Your task to perform on an android device: How big is the universe? Image 0: 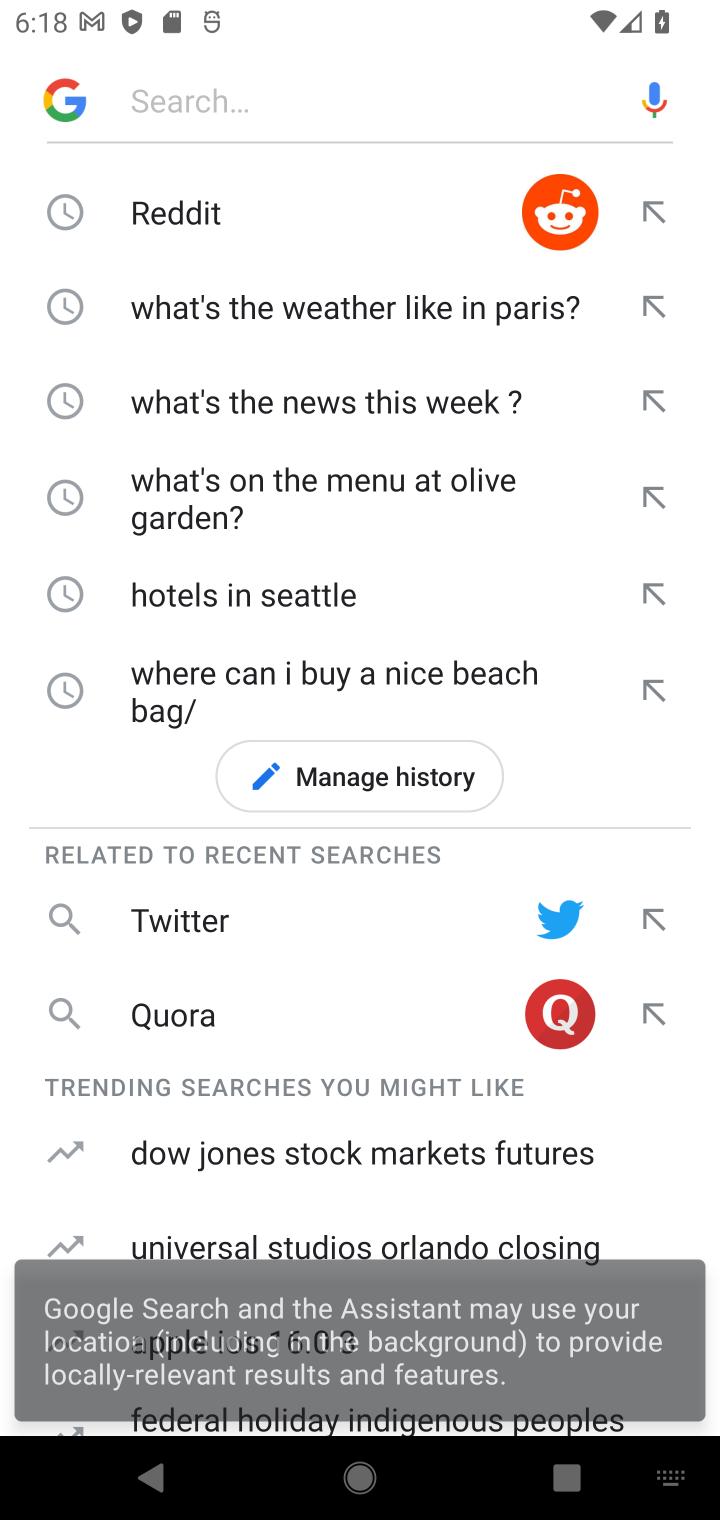
Step 0: press home button
Your task to perform on an android device: How big is the universe? Image 1: 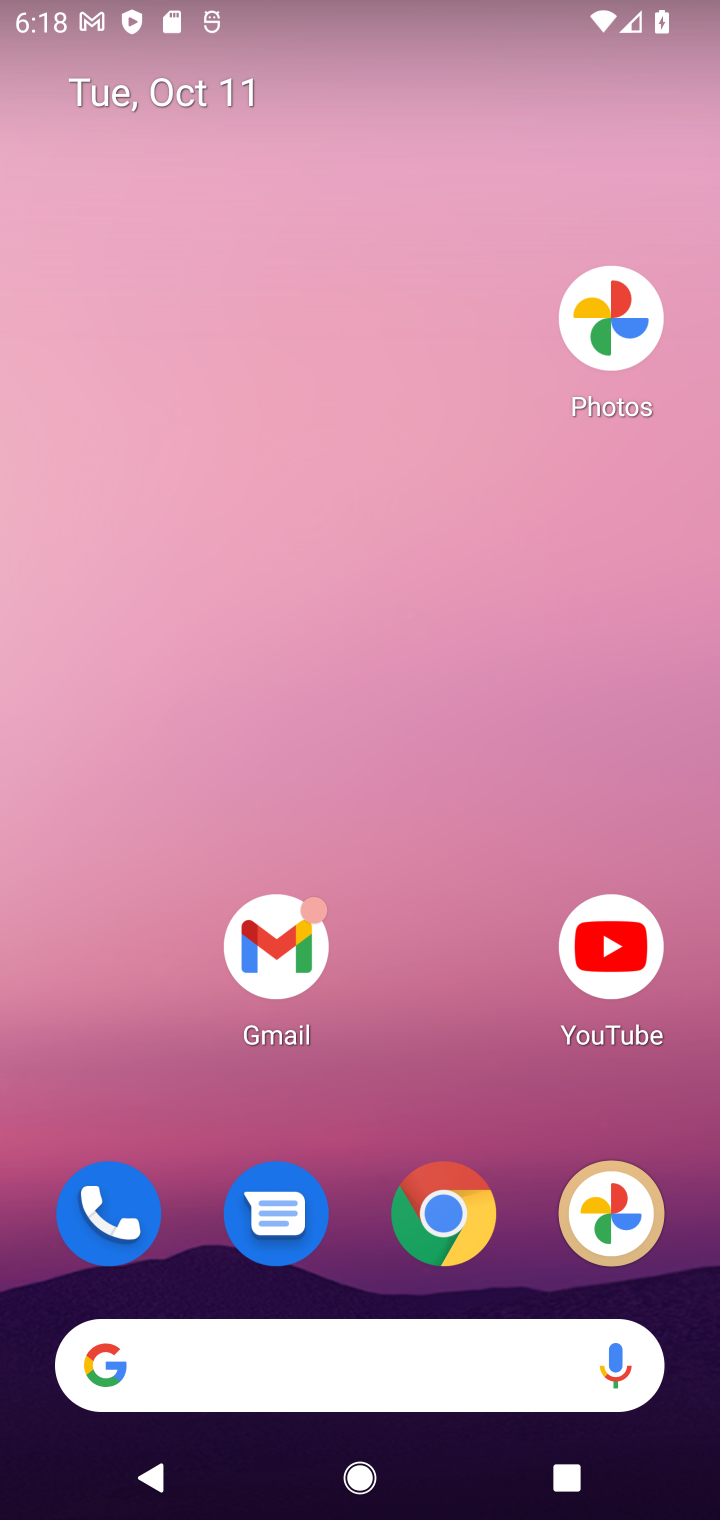
Step 1: drag from (434, 917) to (466, 91)
Your task to perform on an android device: How big is the universe? Image 2: 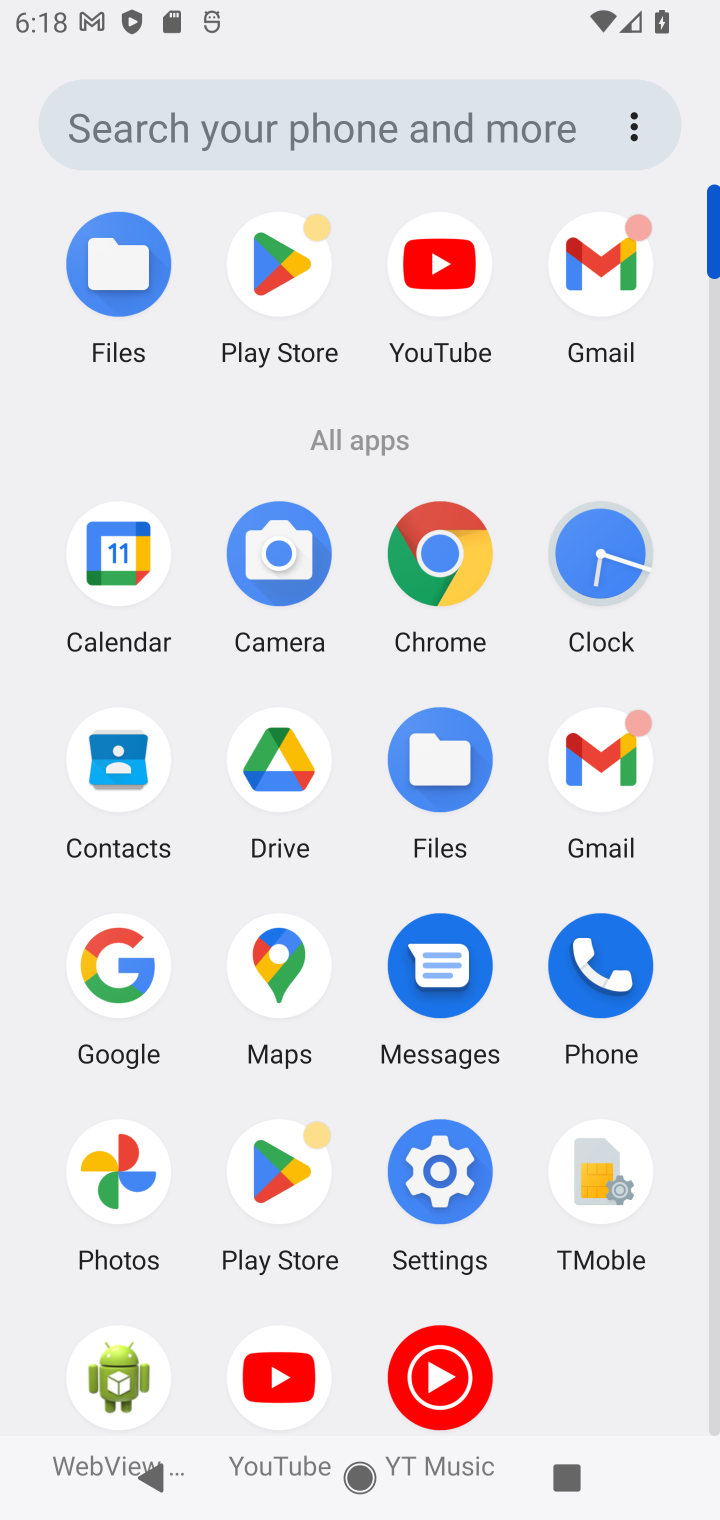
Step 2: click (457, 531)
Your task to perform on an android device: How big is the universe? Image 3: 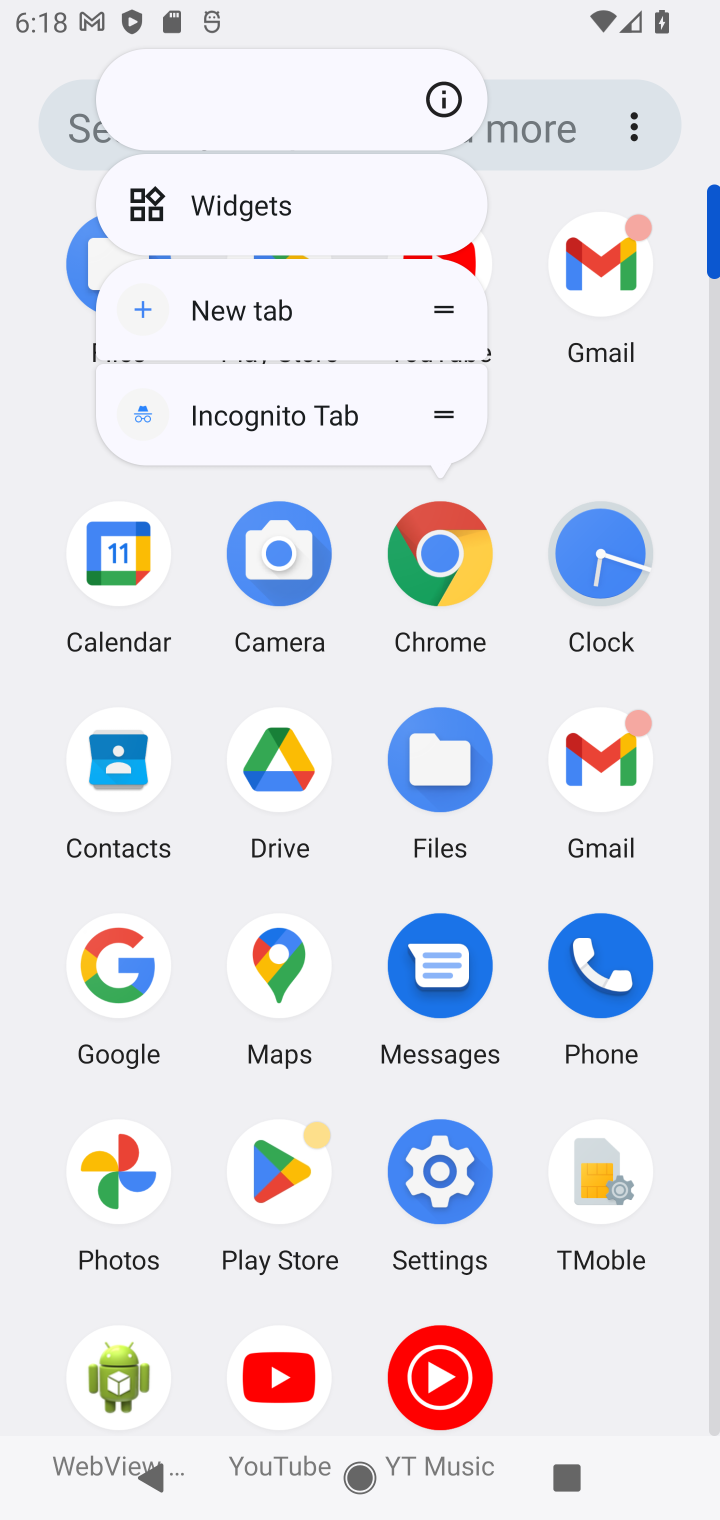
Step 3: click (428, 573)
Your task to perform on an android device: How big is the universe? Image 4: 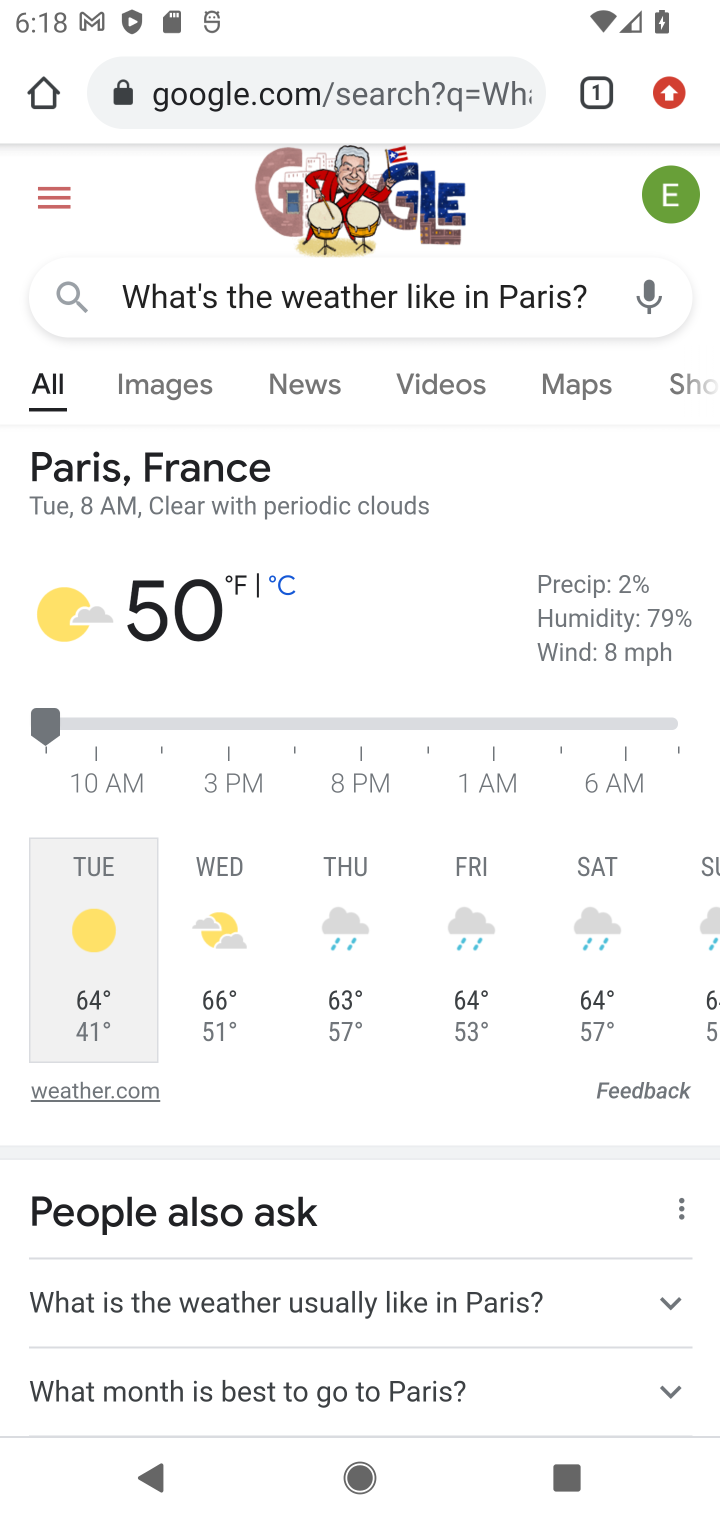
Step 4: click (269, 98)
Your task to perform on an android device: How big is the universe? Image 5: 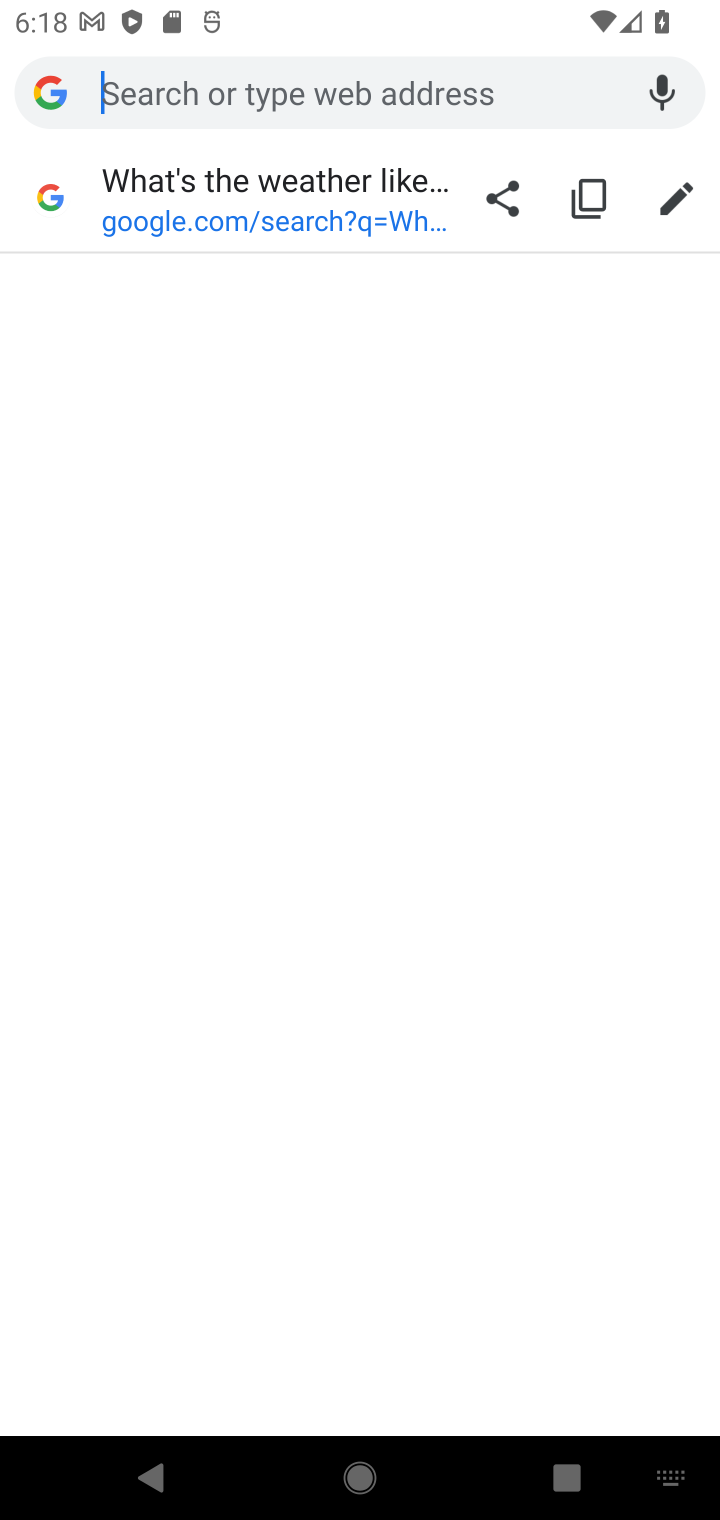
Step 5: type "How big is the universe?"
Your task to perform on an android device: How big is the universe? Image 6: 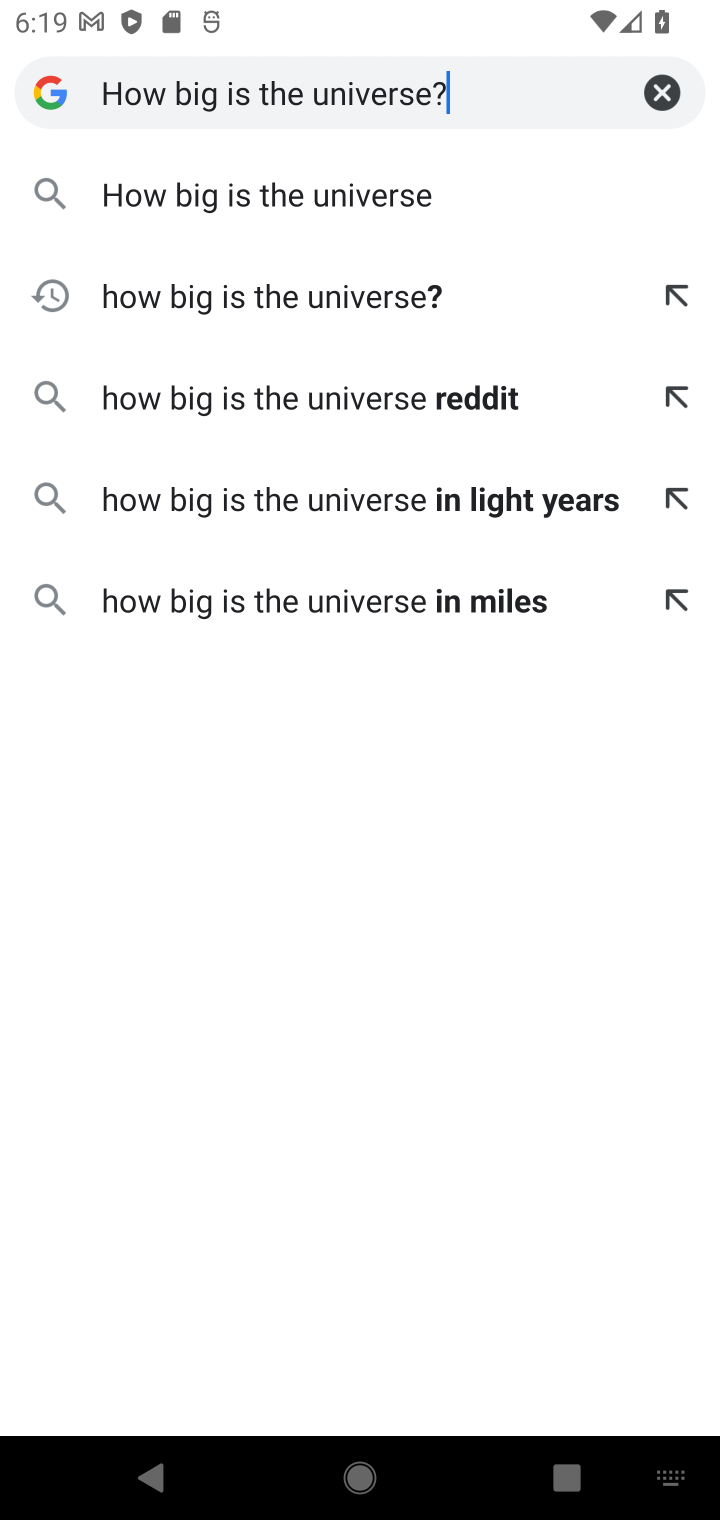
Step 6: type ""
Your task to perform on an android device: How big is the universe? Image 7: 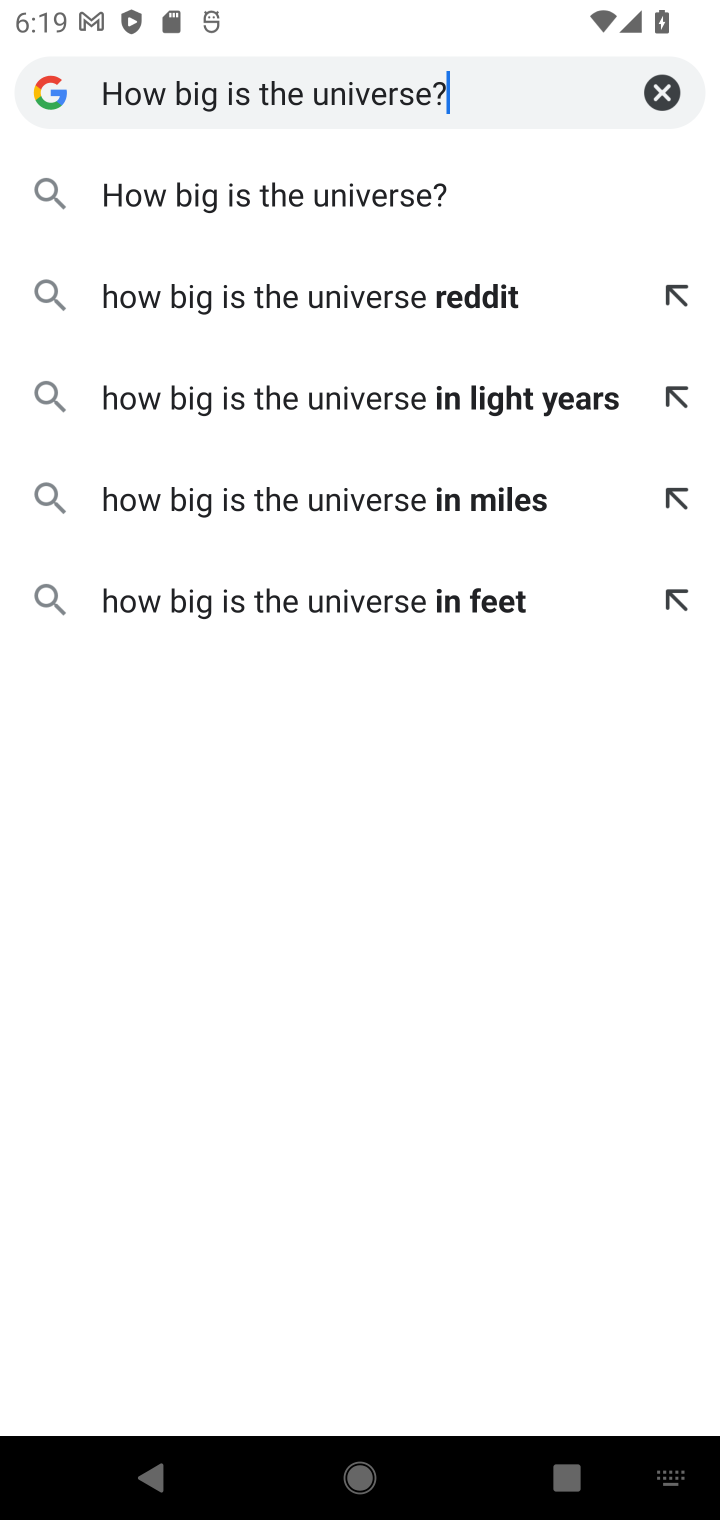
Step 7: press enter
Your task to perform on an android device: How big is the universe? Image 8: 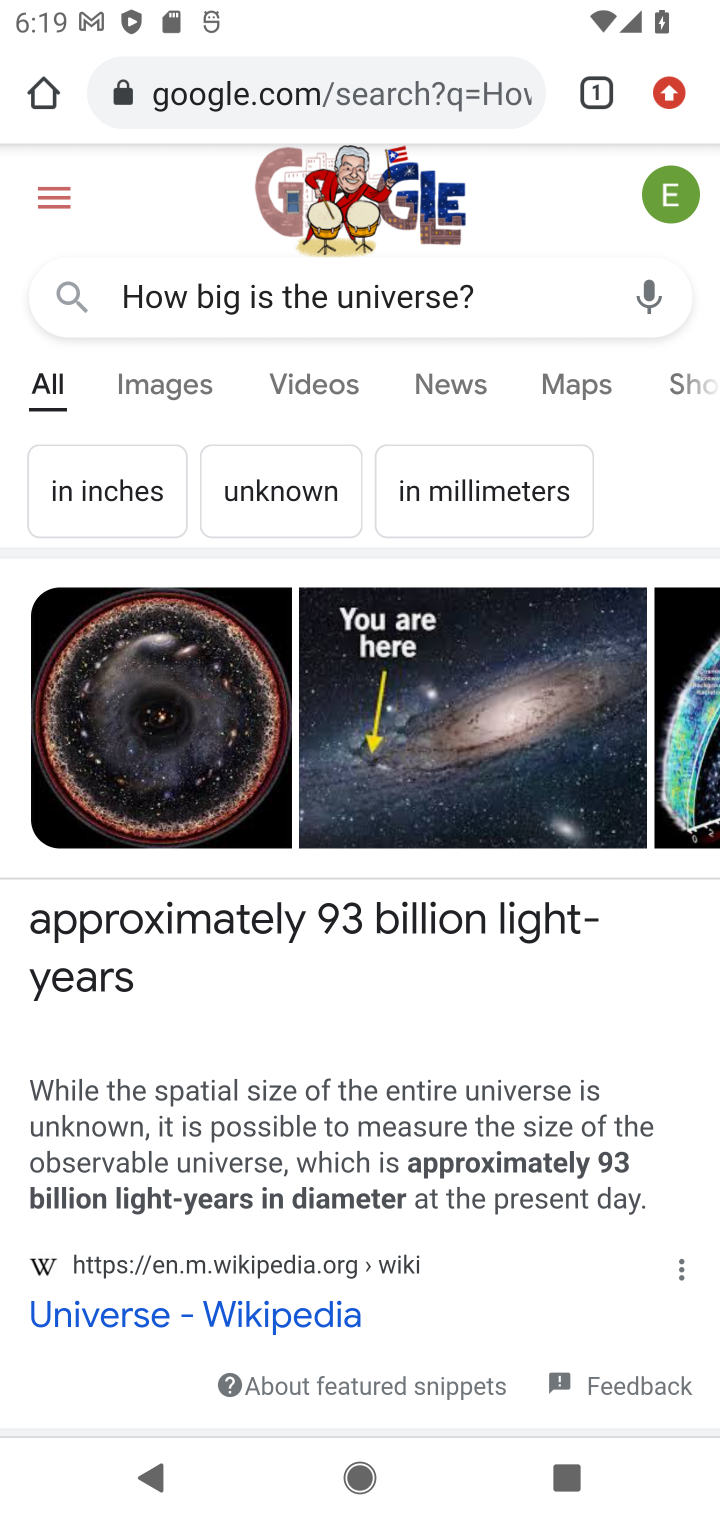
Step 8: click (220, 1314)
Your task to perform on an android device: How big is the universe? Image 9: 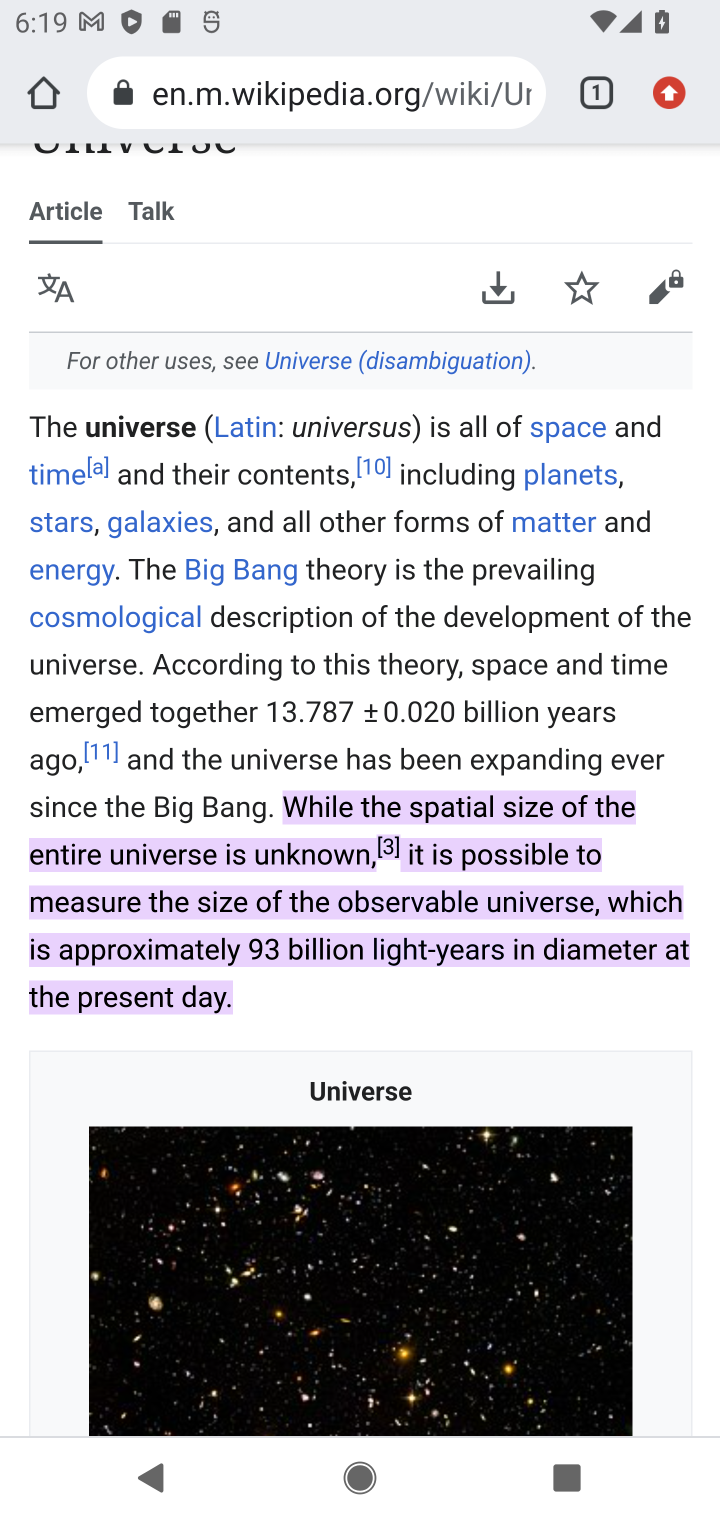
Step 9: drag from (312, 1175) to (356, 169)
Your task to perform on an android device: How big is the universe? Image 10: 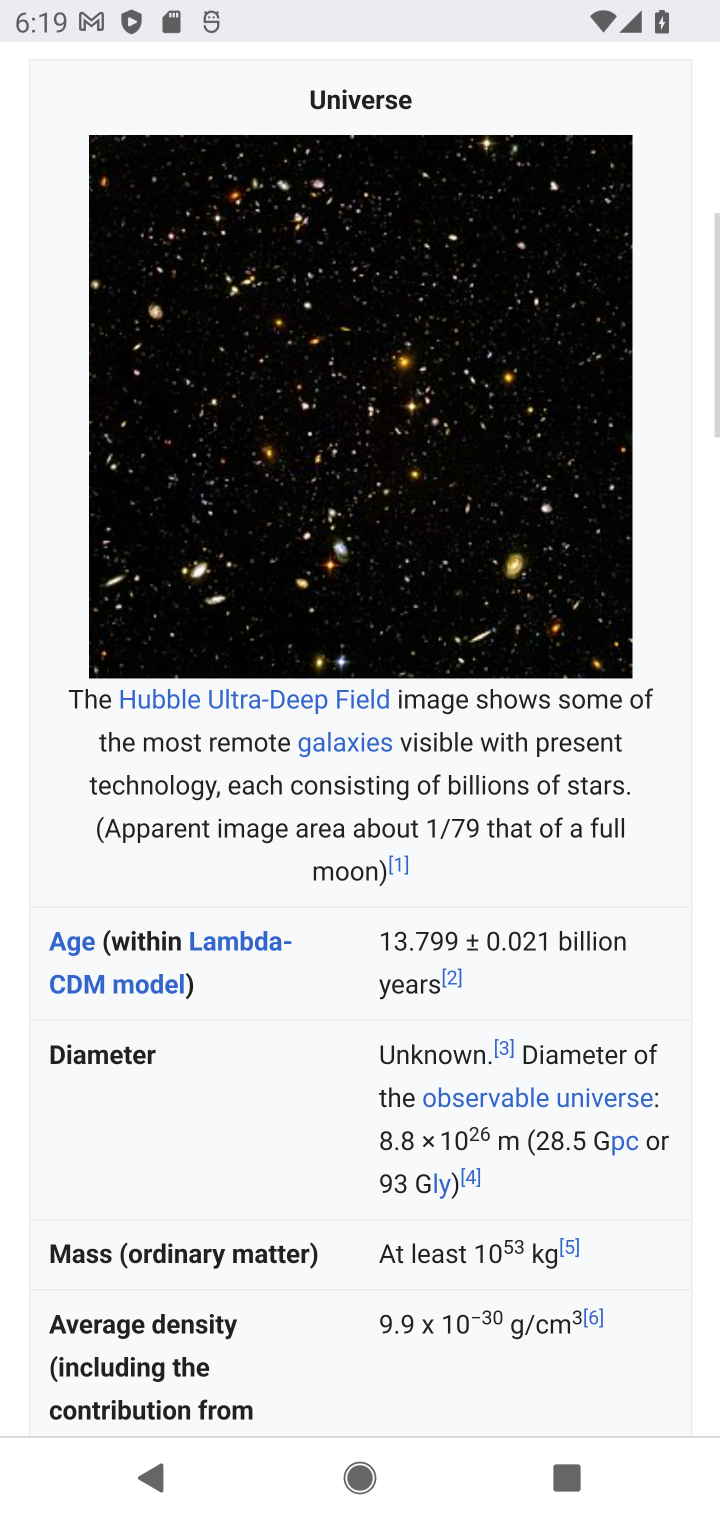
Step 10: drag from (354, 1328) to (455, 289)
Your task to perform on an android device: How big is the universe? Image 11: 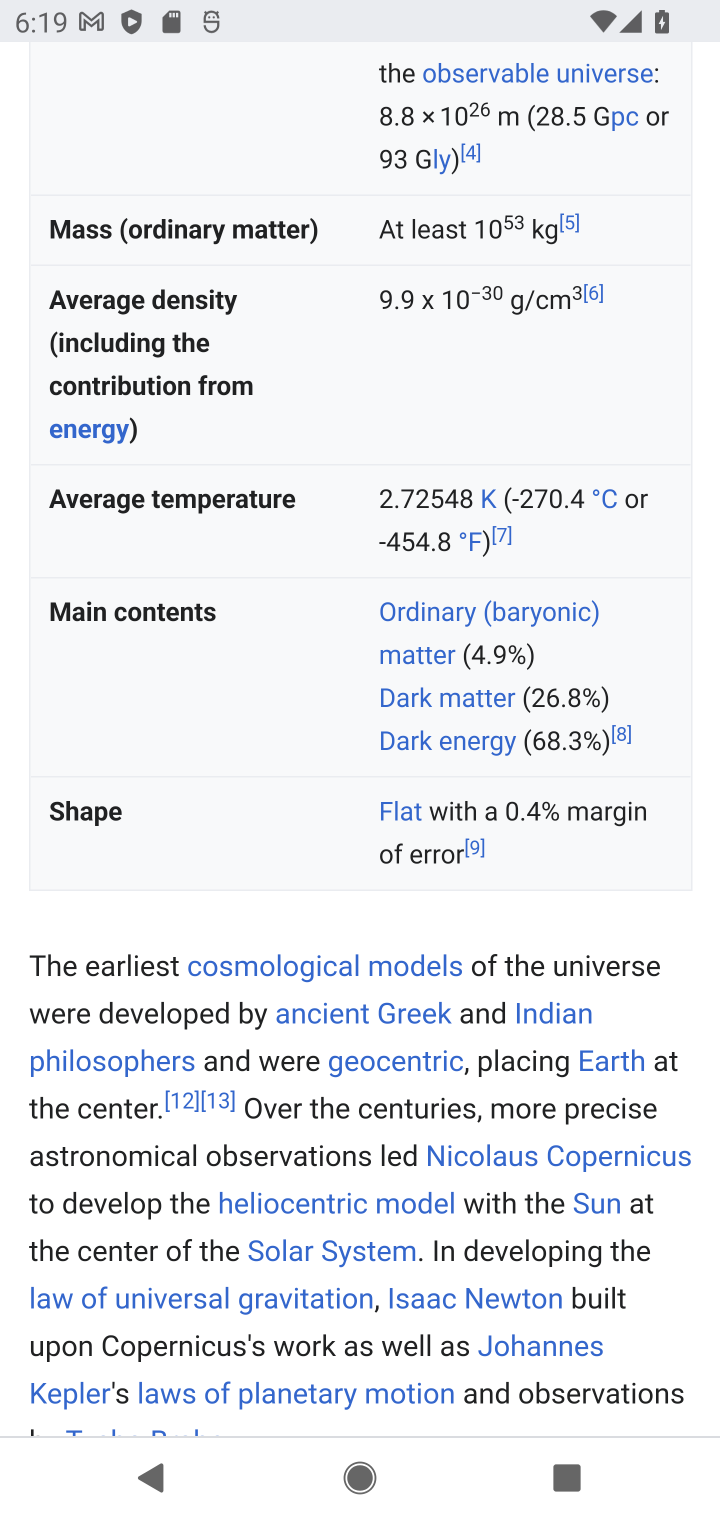
Step 11: drag from (450, 1268) to (337, 53)
Your task to perform on an android device: How big is the universe? Image 12: 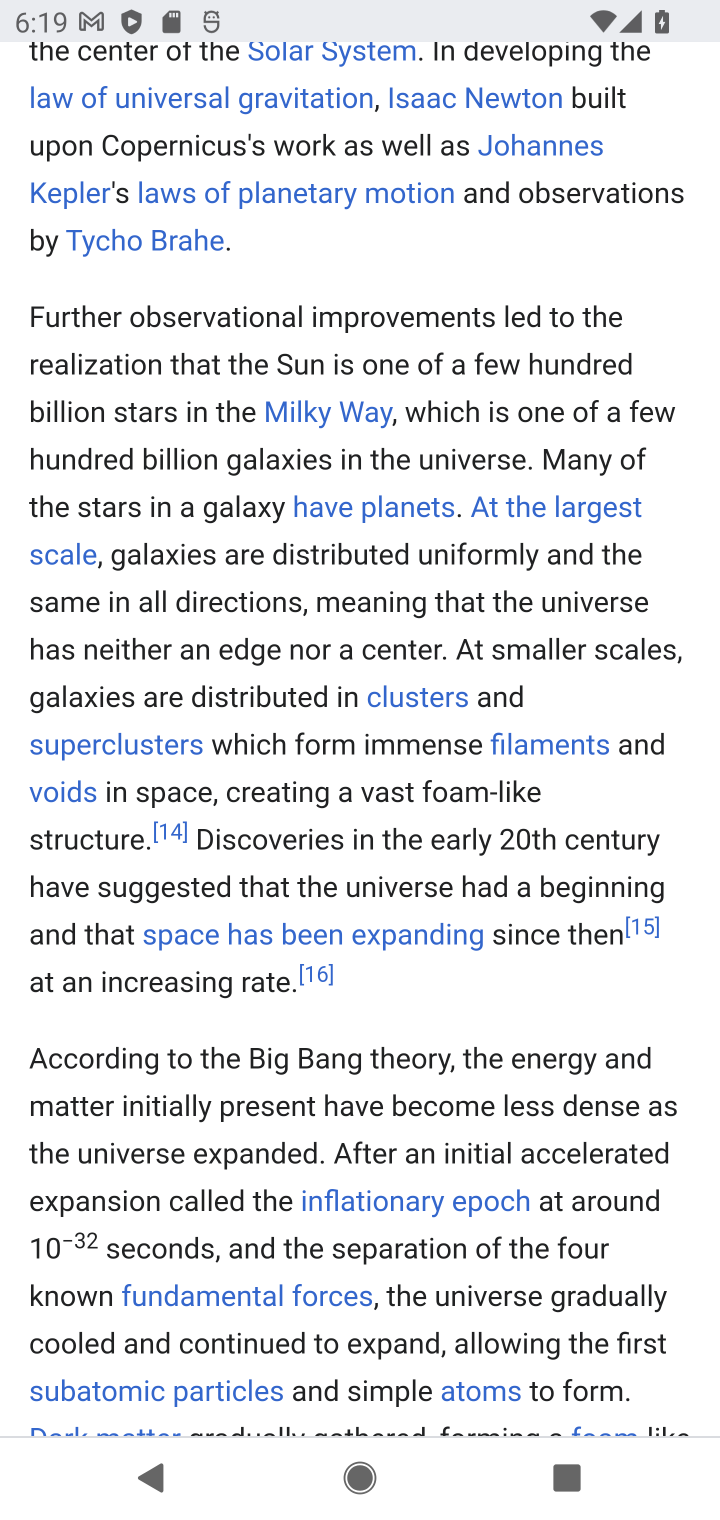
Step 12: drag from (218, 1295) to (247, 104)
Your task to perform on an android device: How big is the universe? Image 13: 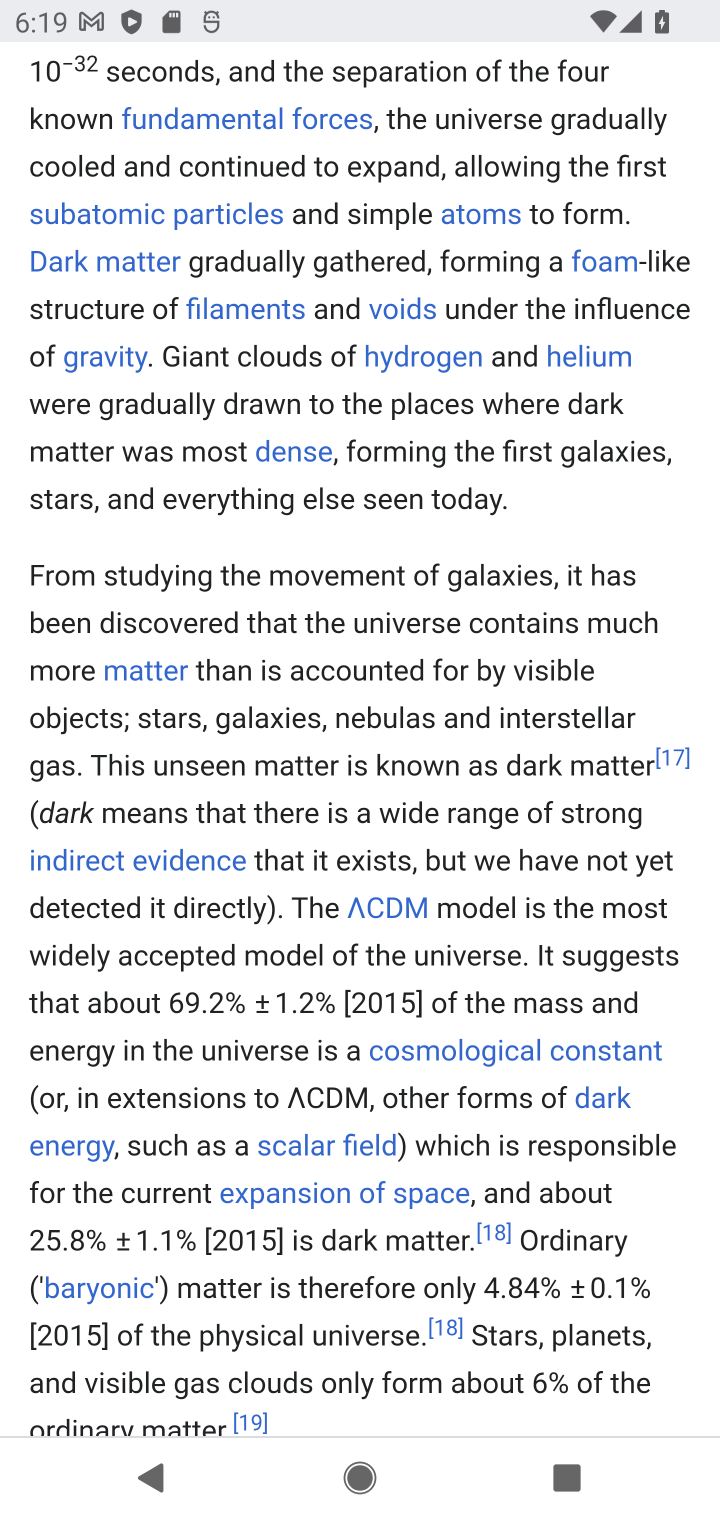
Step 13: drag from (235, 1265) to (259, 255)
Your task to perform on an android device: How big is the universe? Image 14: 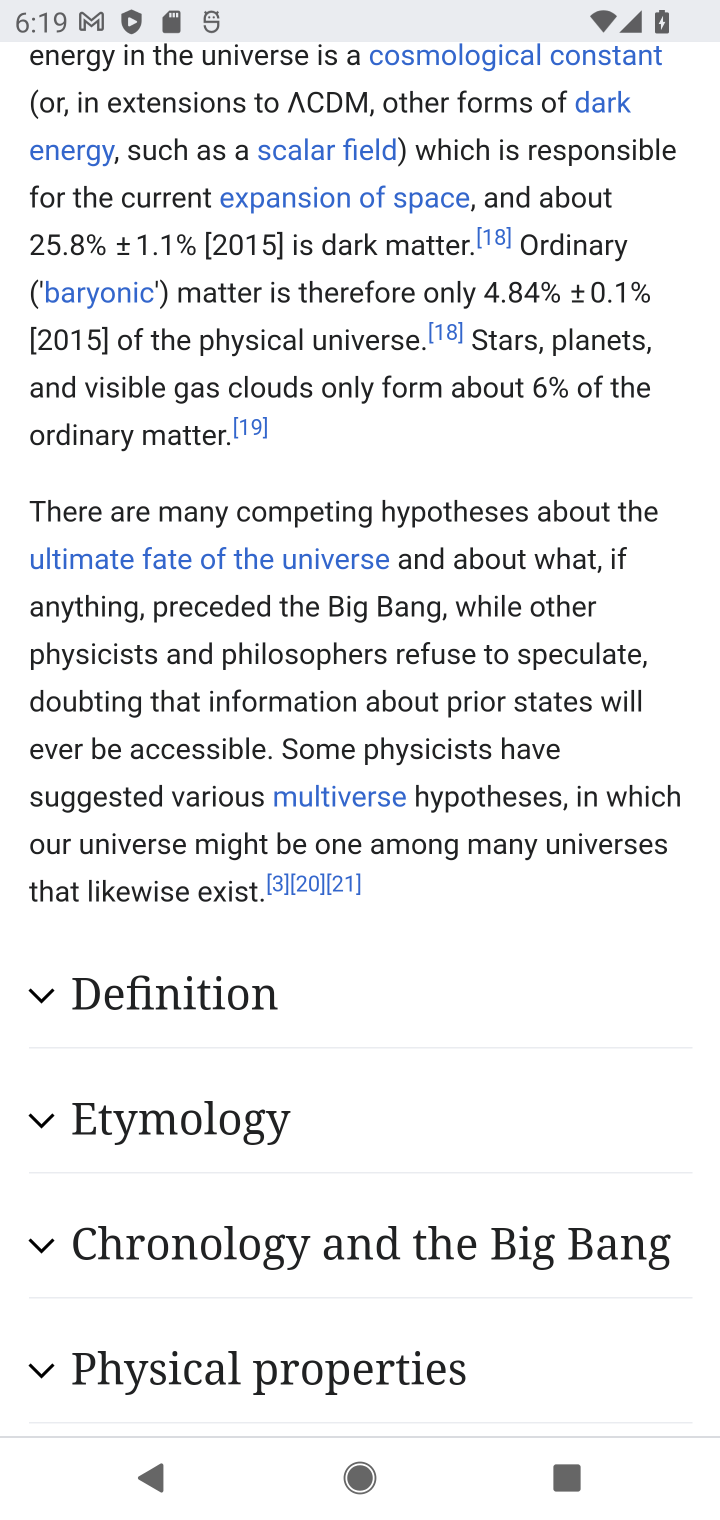
Step 14: click (245, 1003)
Your task to perform on an android device: How big is the universe? Image 15: 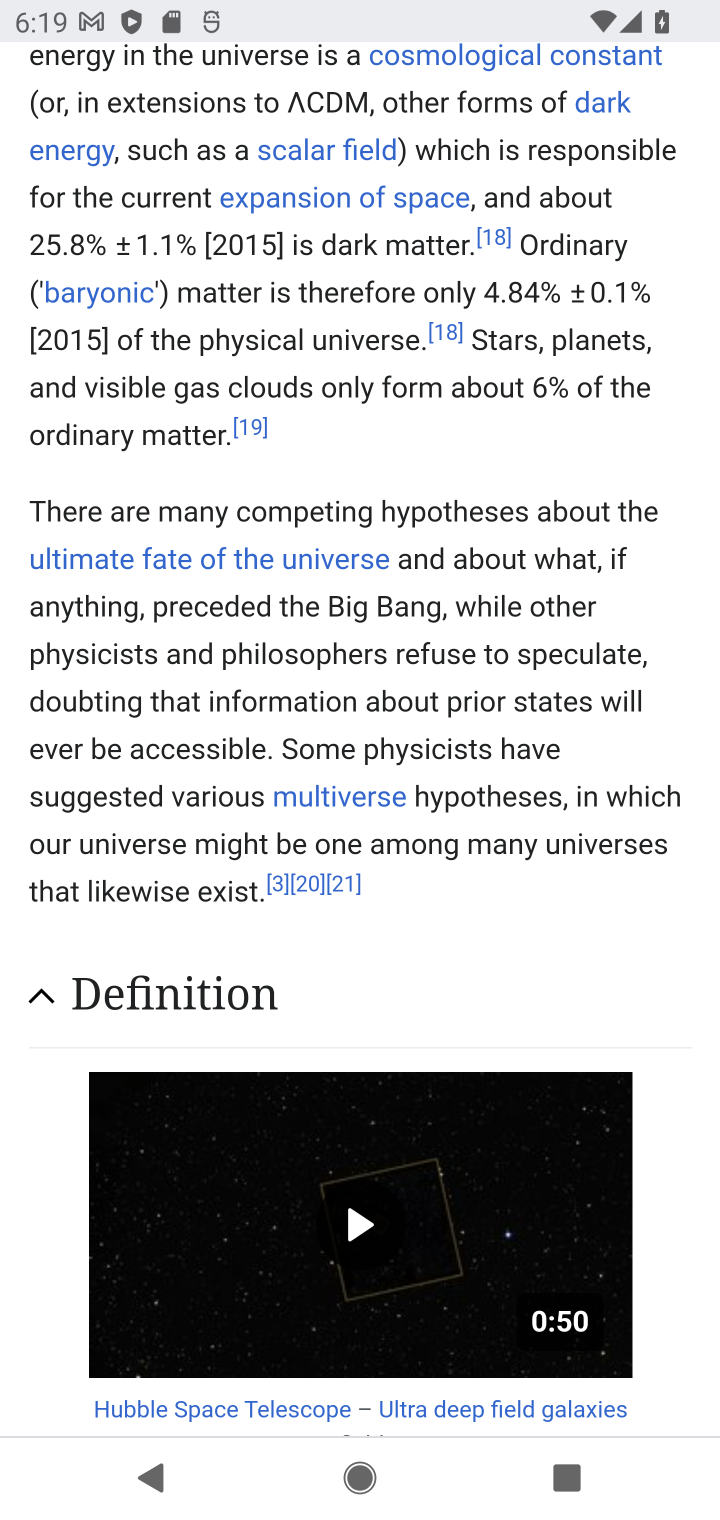
Step 15: drag from (461, 668) to (493, 64)
Your task to perform on an android device: How big is the universe? Image 16: 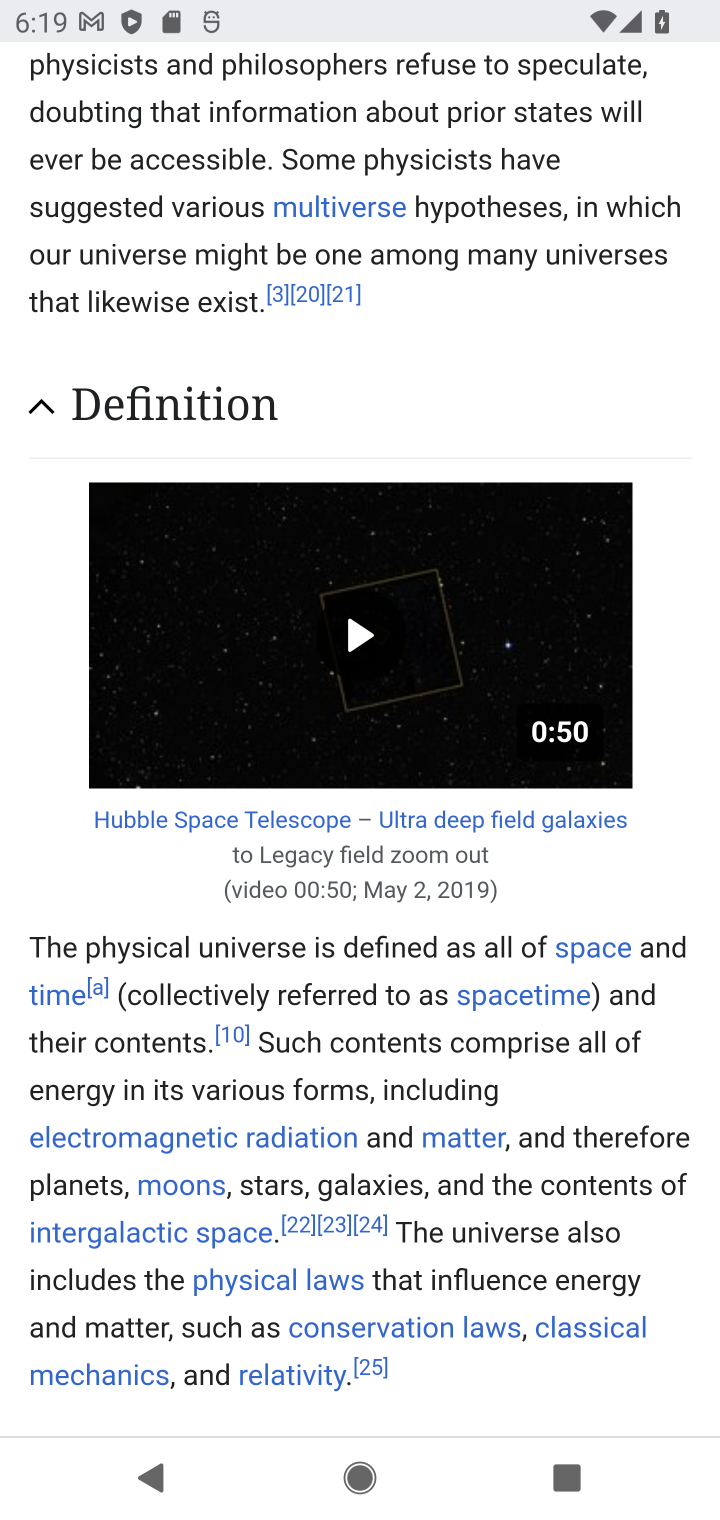
Step 16: click (37, 380)
Your task to perform on an android device: How big is the universe? Image 17: 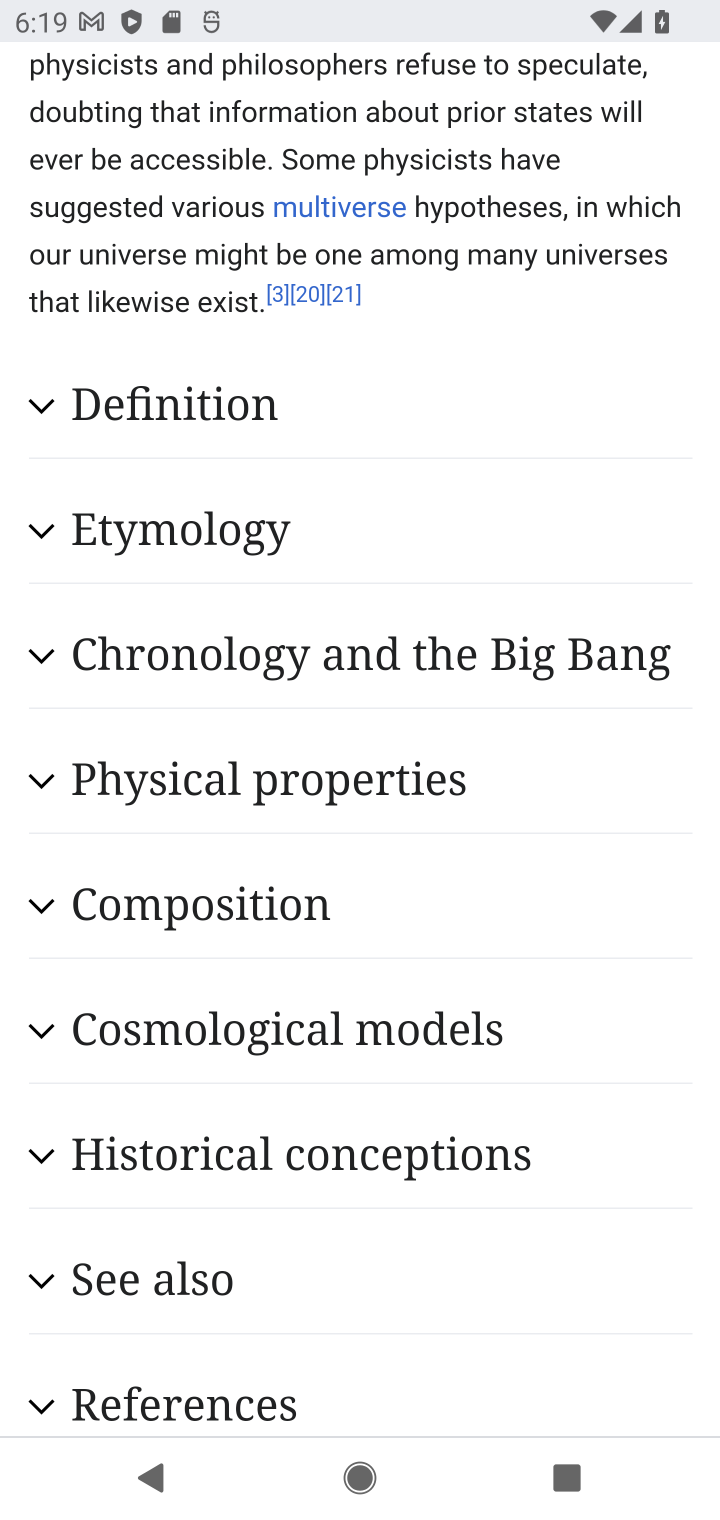
Step 17: click (57, 524)
Your task to perform on an android device: How big is the universe? Image 18: 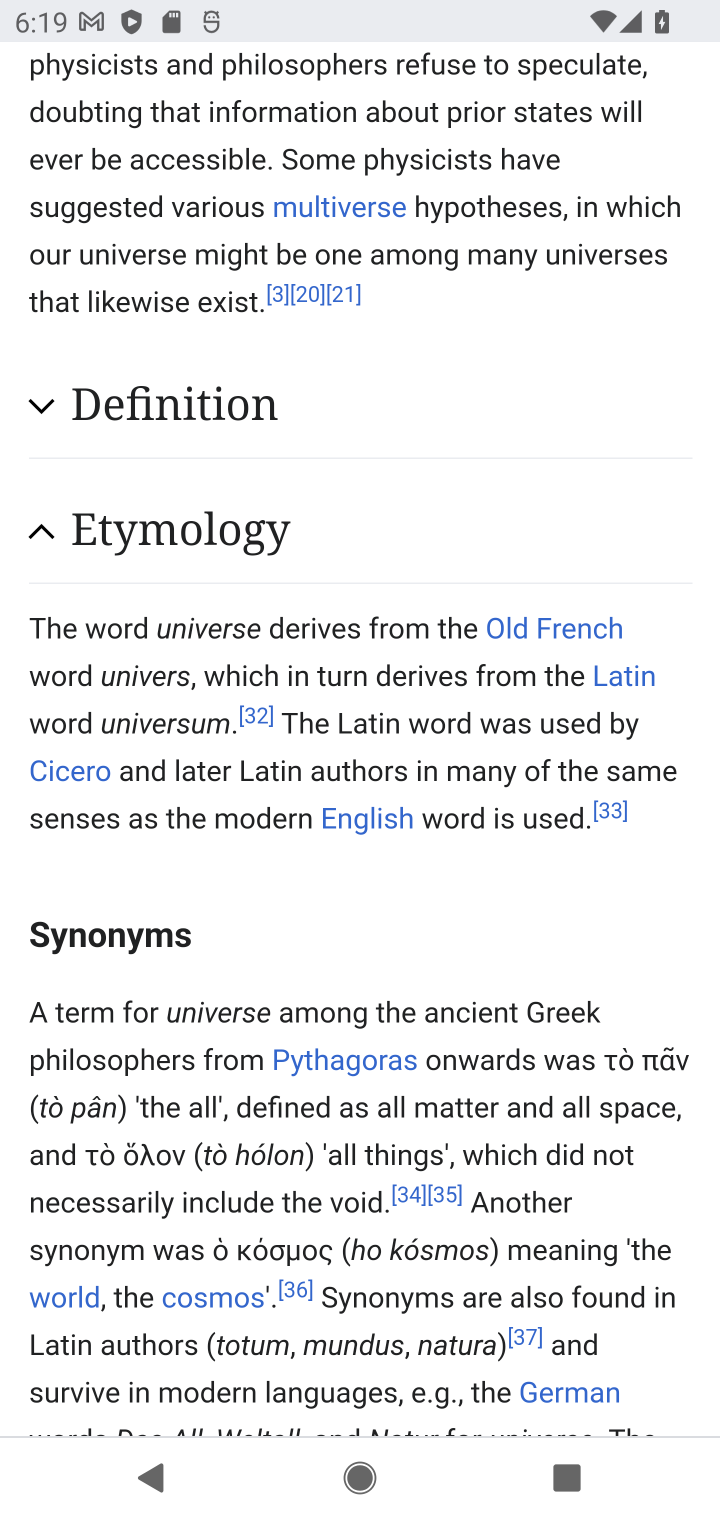
Step 18: drag from (183, 1227) to (292, 135)
Your task to perform on an android device: How big is the universe? Image 19: 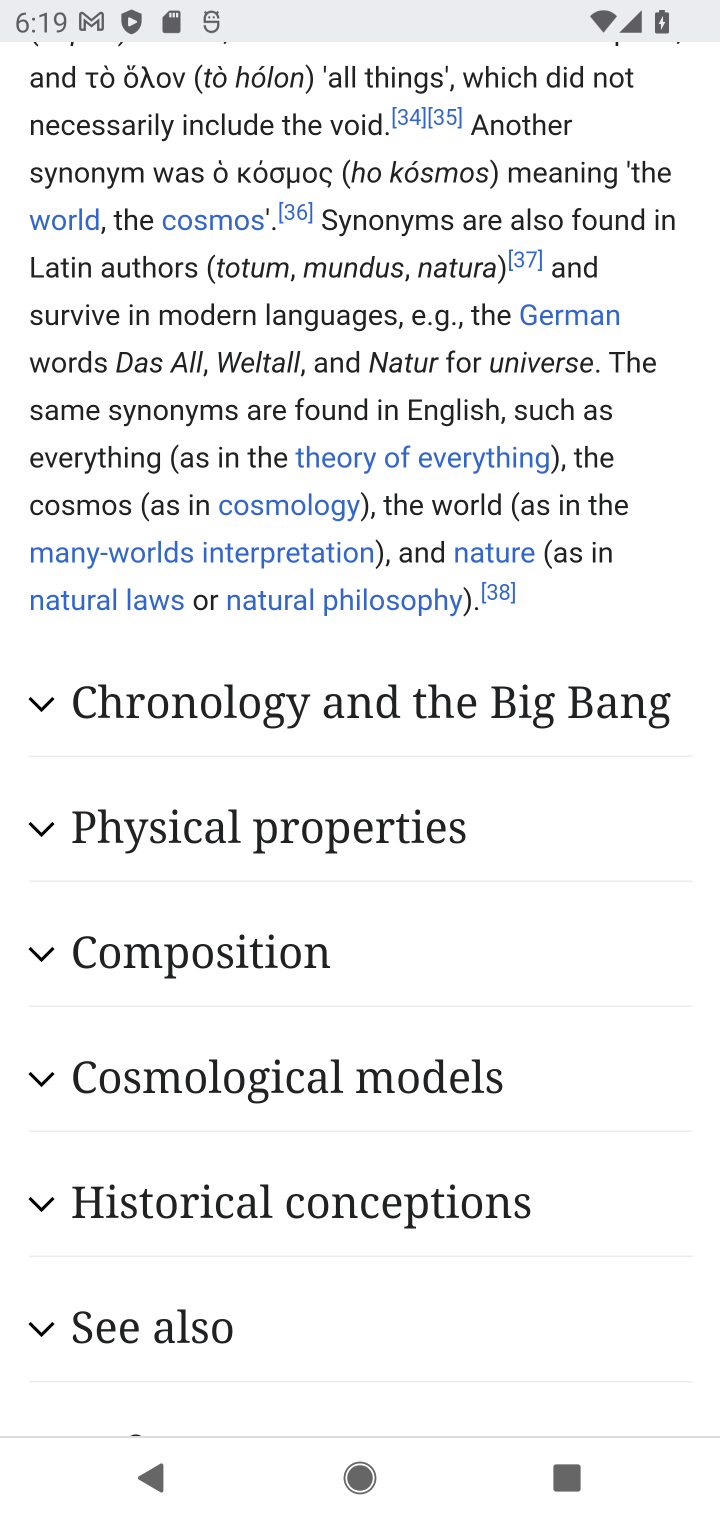
Step 19: click (84, 855)
Your task to perform on an android device: How big is the universe? Image 20: 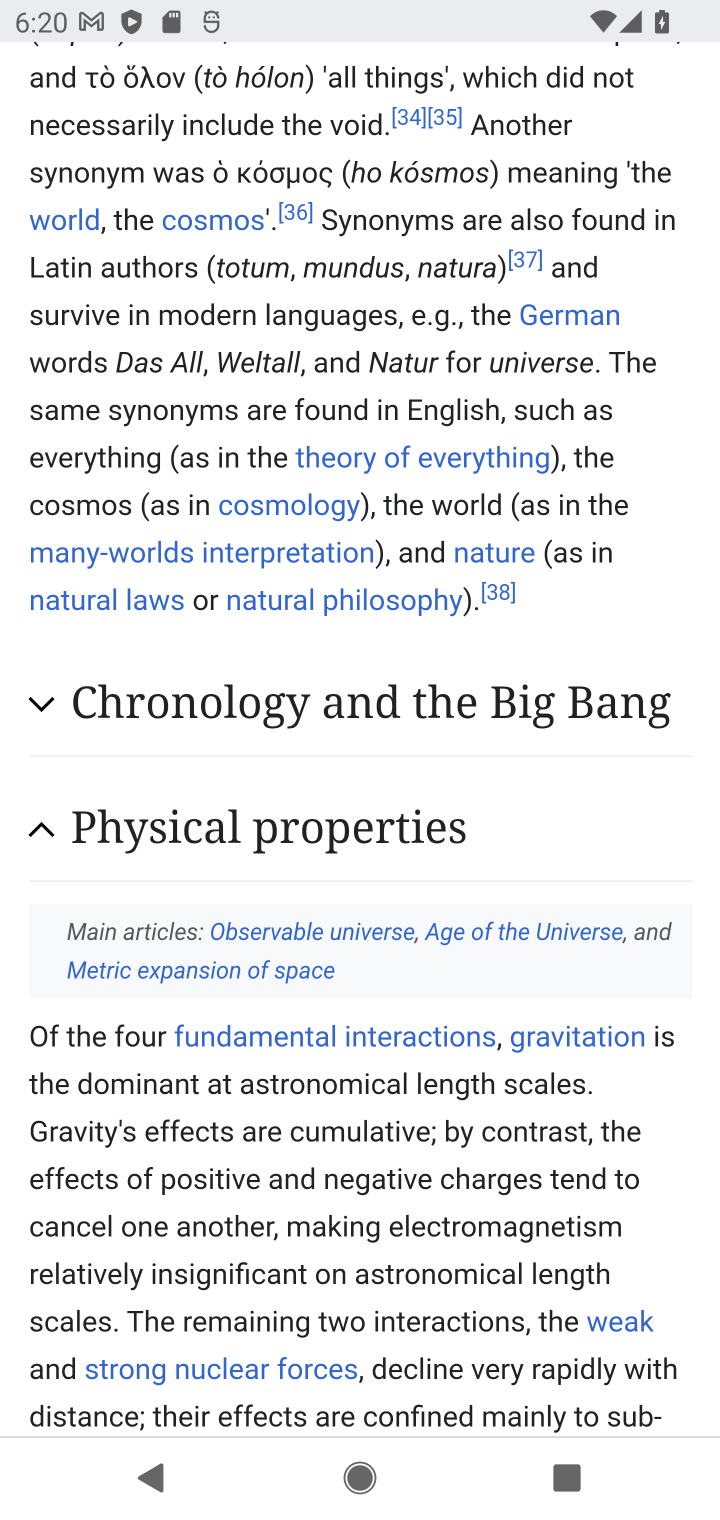
Step 20: drag from (183, 1109) to (224, 458)
Your task to perform on an android device: How big is the universe? Image 21: 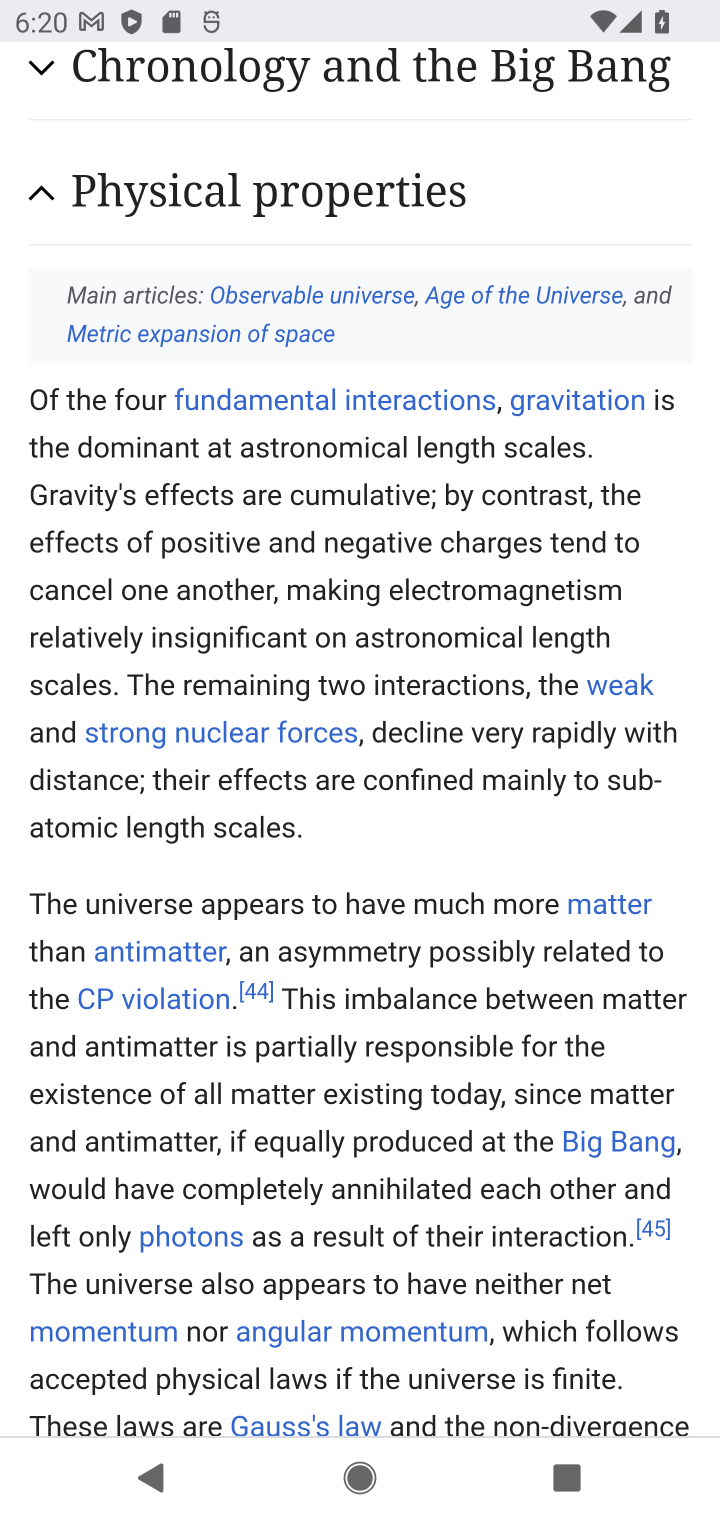
Step 21: drag from (192, 837) to (214, 338)
Your task to perform on an android device: How big is the universe? Image 22: 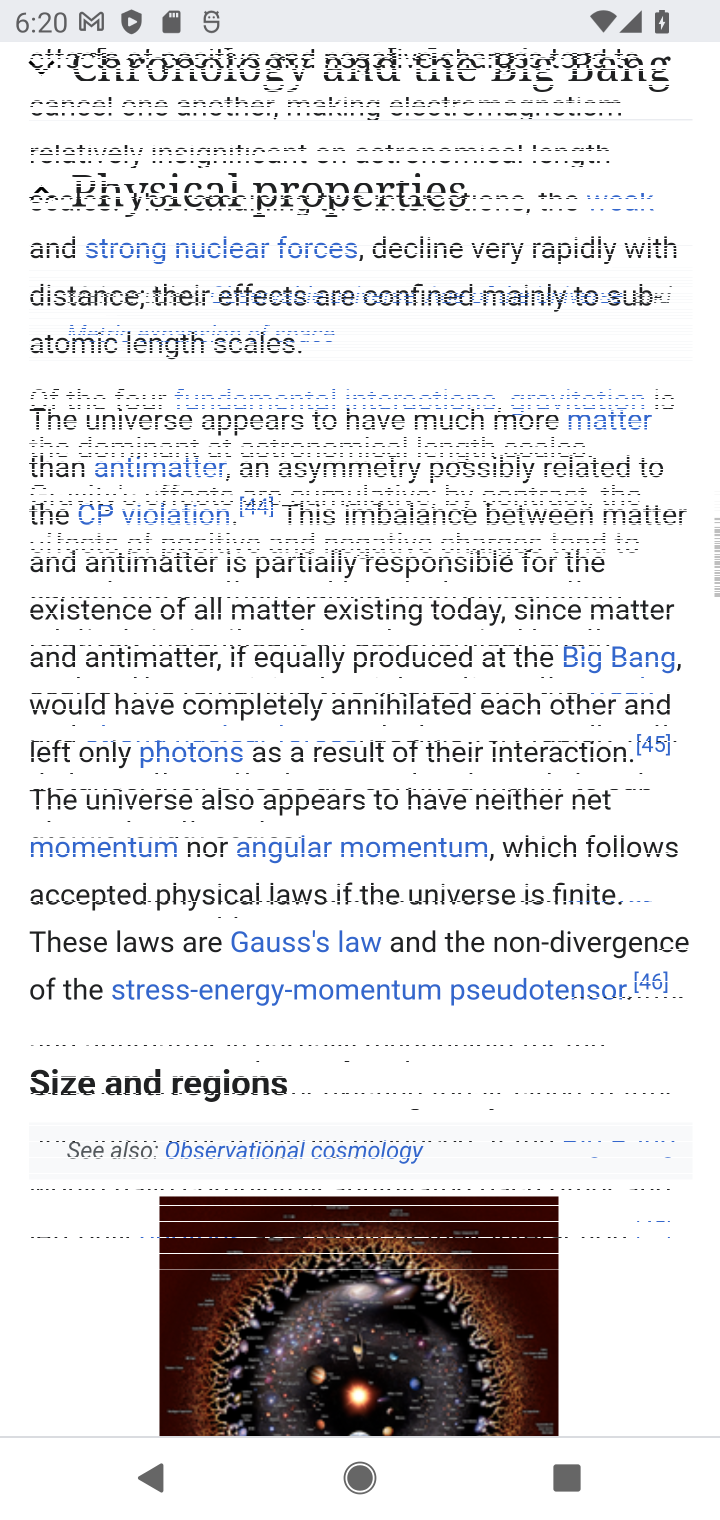
Step 22: drag from (142, 630) to (191, 394)
Your task to perform on an android device: How big is the universe? Image 23: 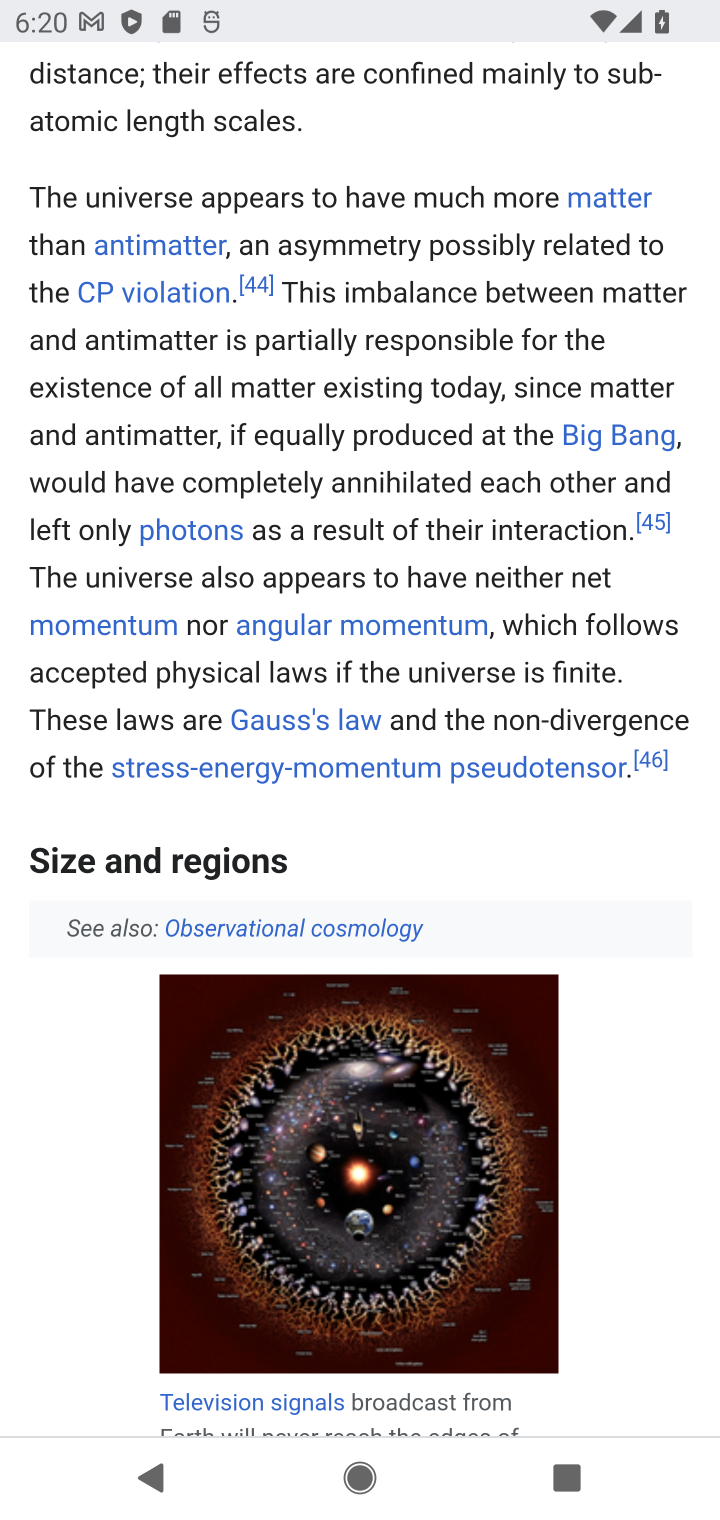
Step 23: drag from (190, 791) to (281, 321)
Your task to perform on an android device: How big is the universe? Image 24: 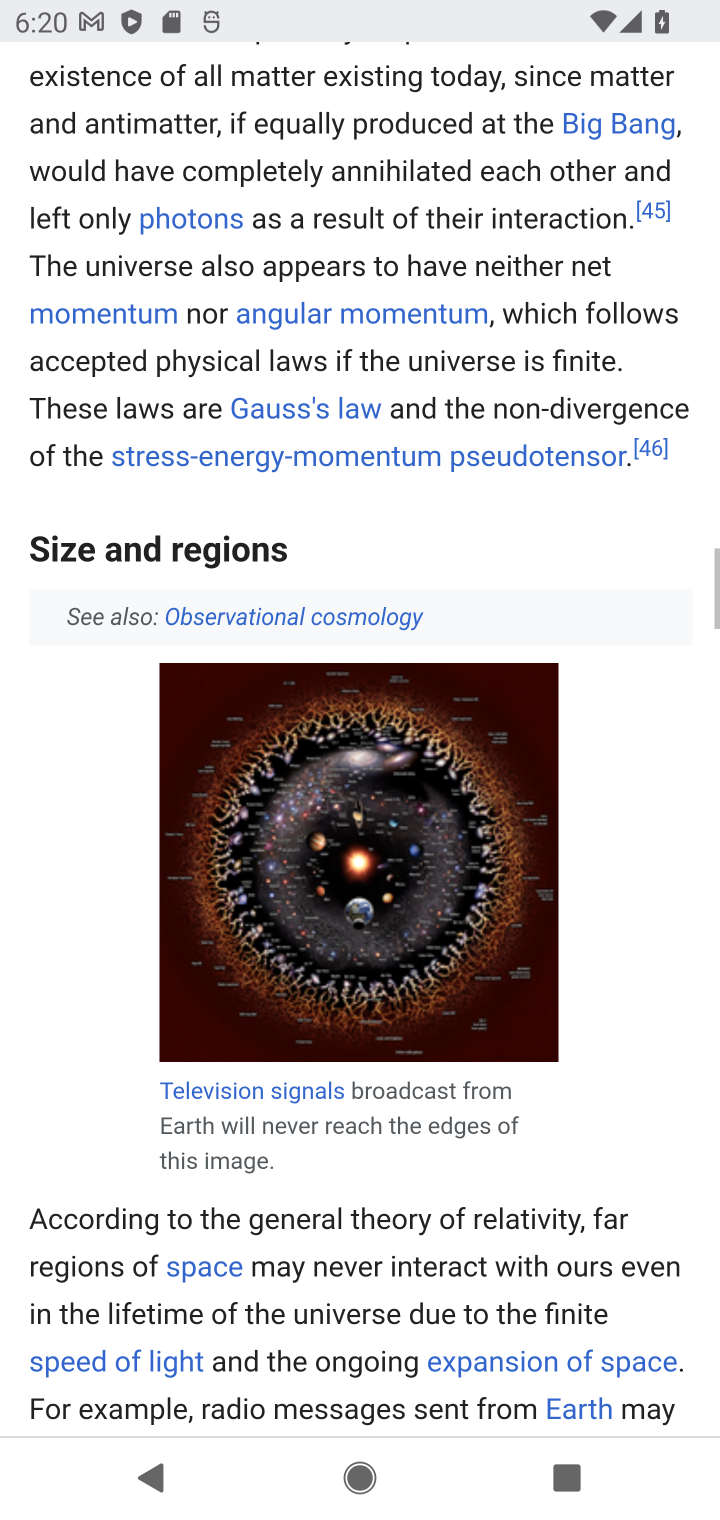
Step 24: drag from (276, 719) to (286, 294)
Your task to perform on an android device: How big is the universe? Image 25: 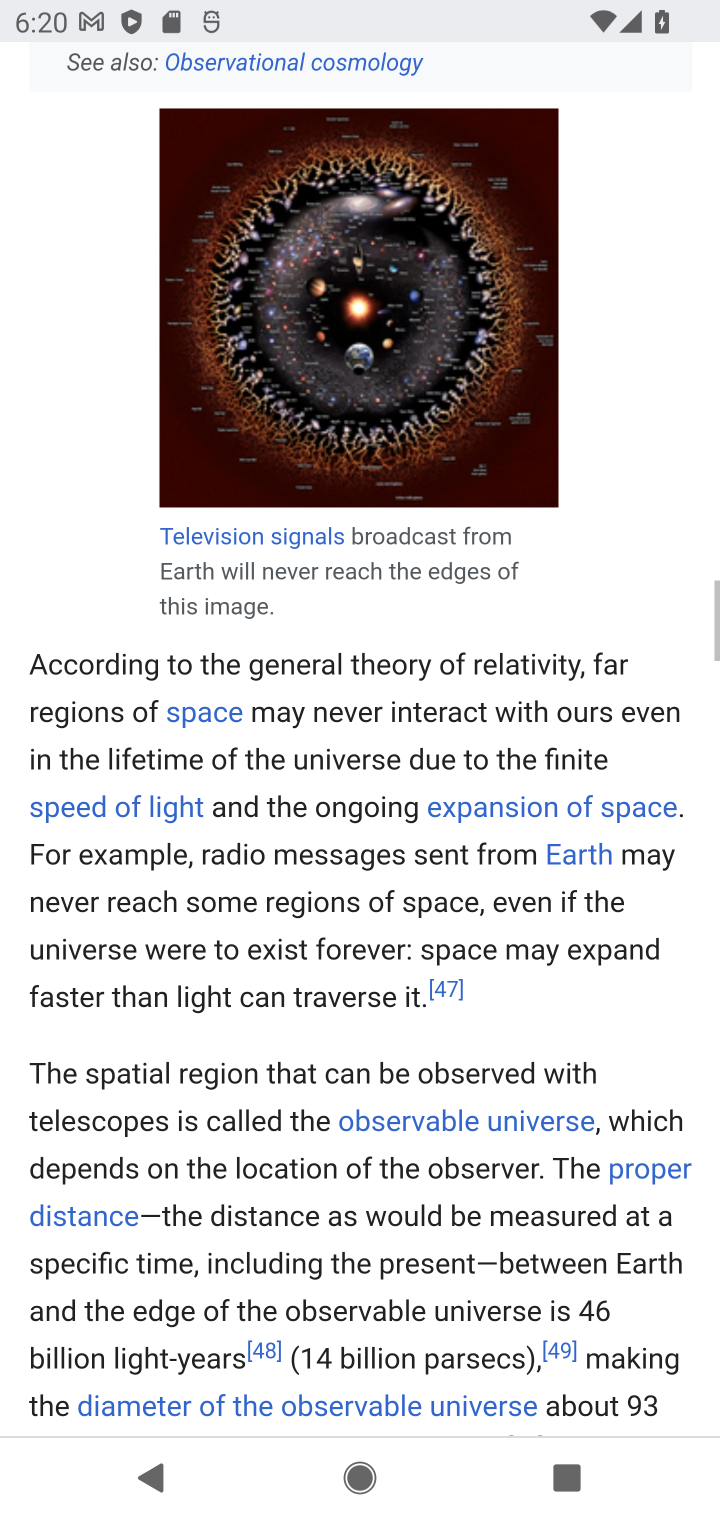
Step 25: drag from (293, 886) to (339, 246)
Your task to perform on an android device: How big is the universe? Image 26: 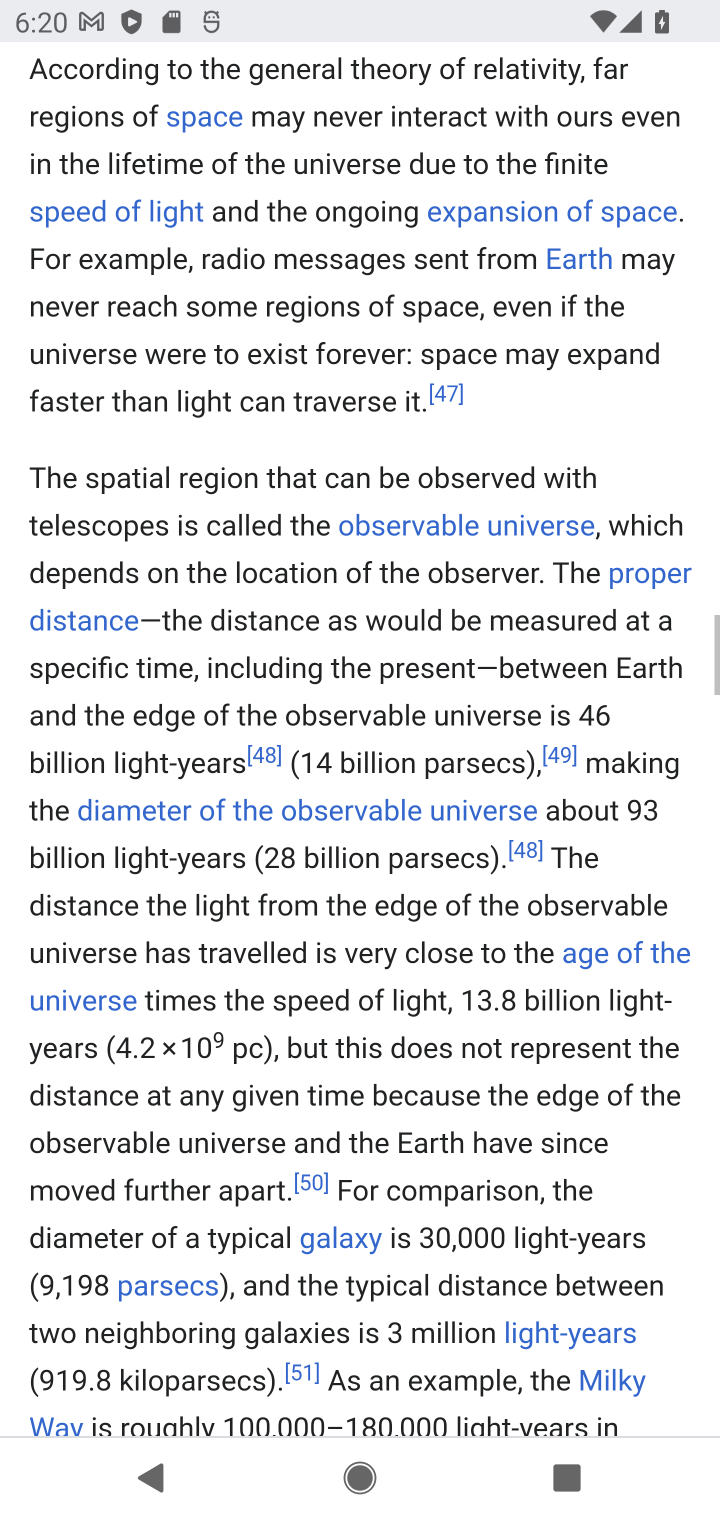
Step 26: drag from (282, 854) to (299, 296)
Your task to perform on an android device: How big is the universe? Image 27: 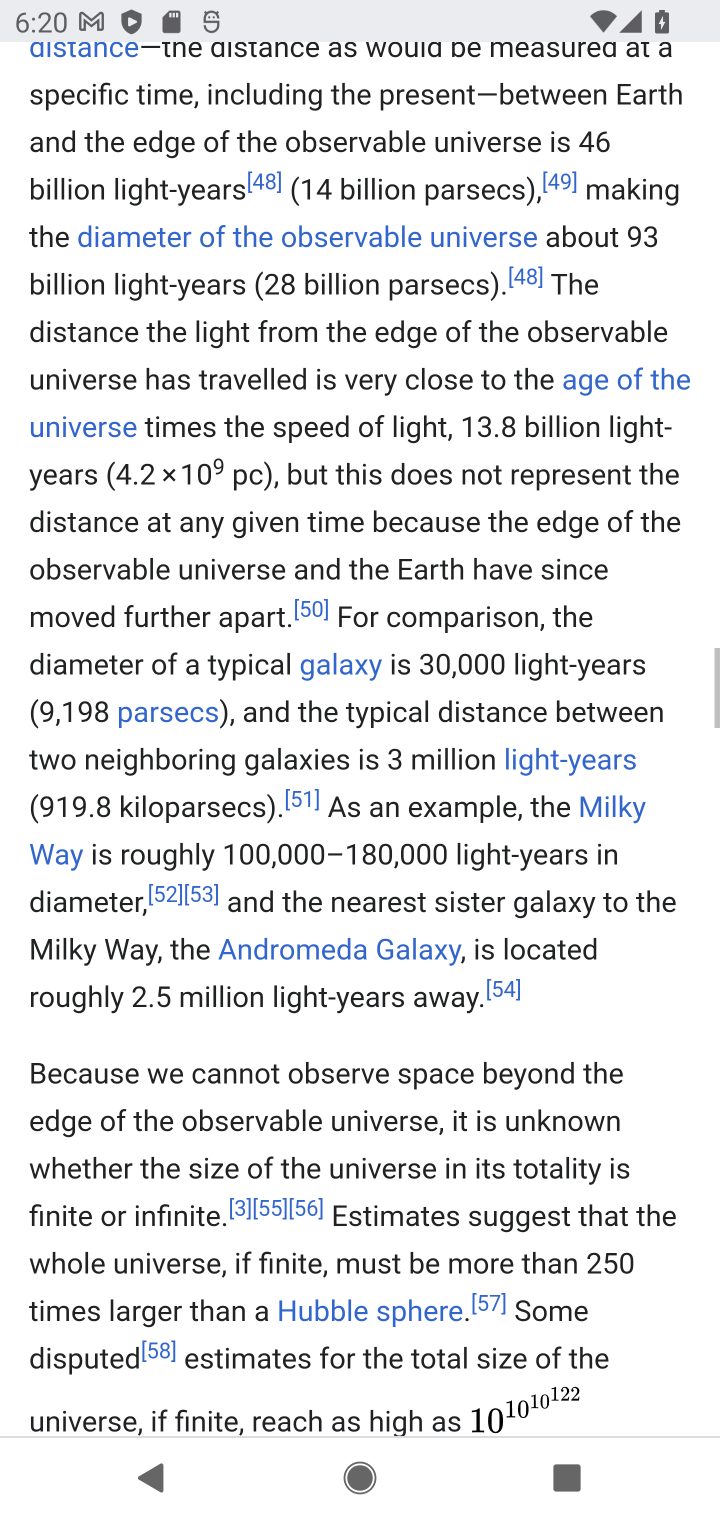
Step 27: drag from (228, 587) to (250, 460)
Your task to perform on an android device: How big is the universe? Image 28: 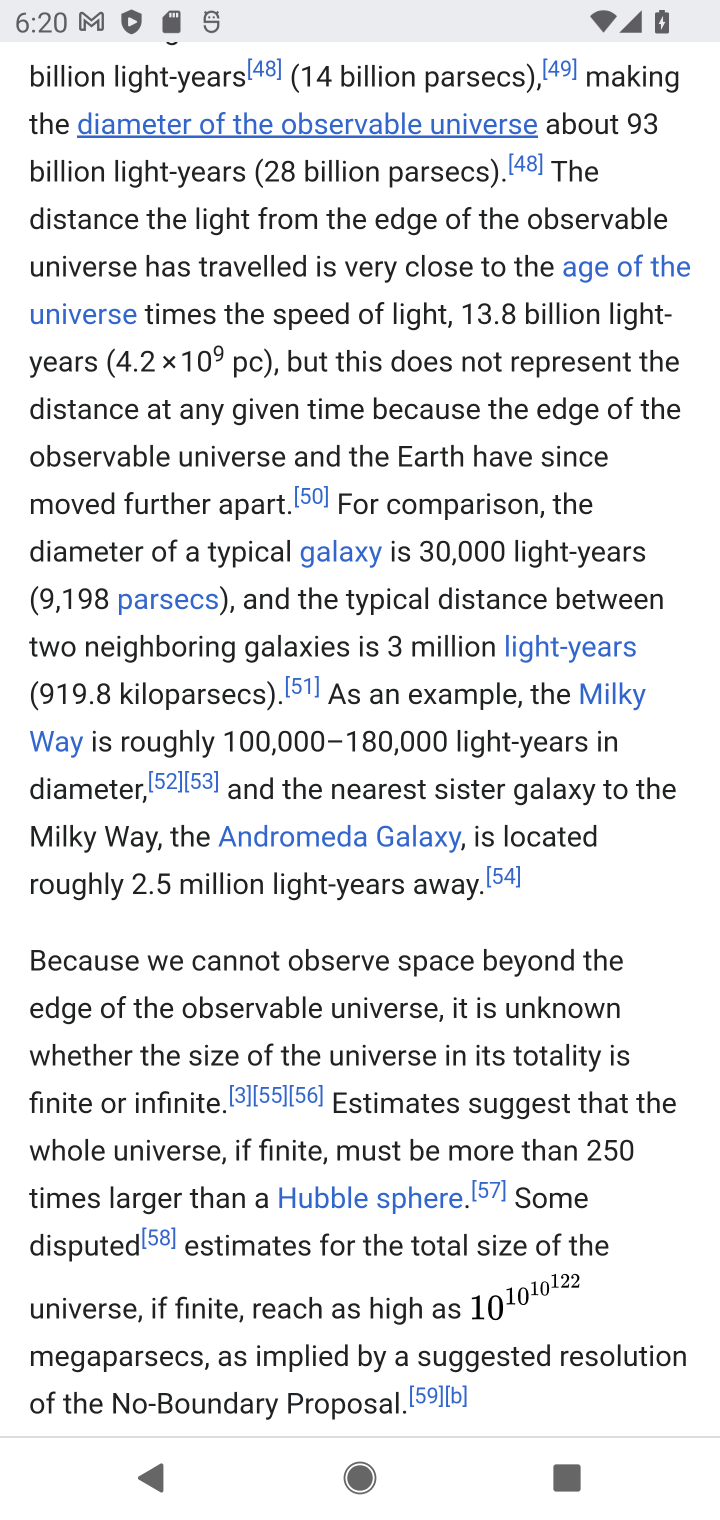
Step 28: drag from (597, 1147) to (573, 544)
Your task to perform on an android device: How big is the universe? Image 29: 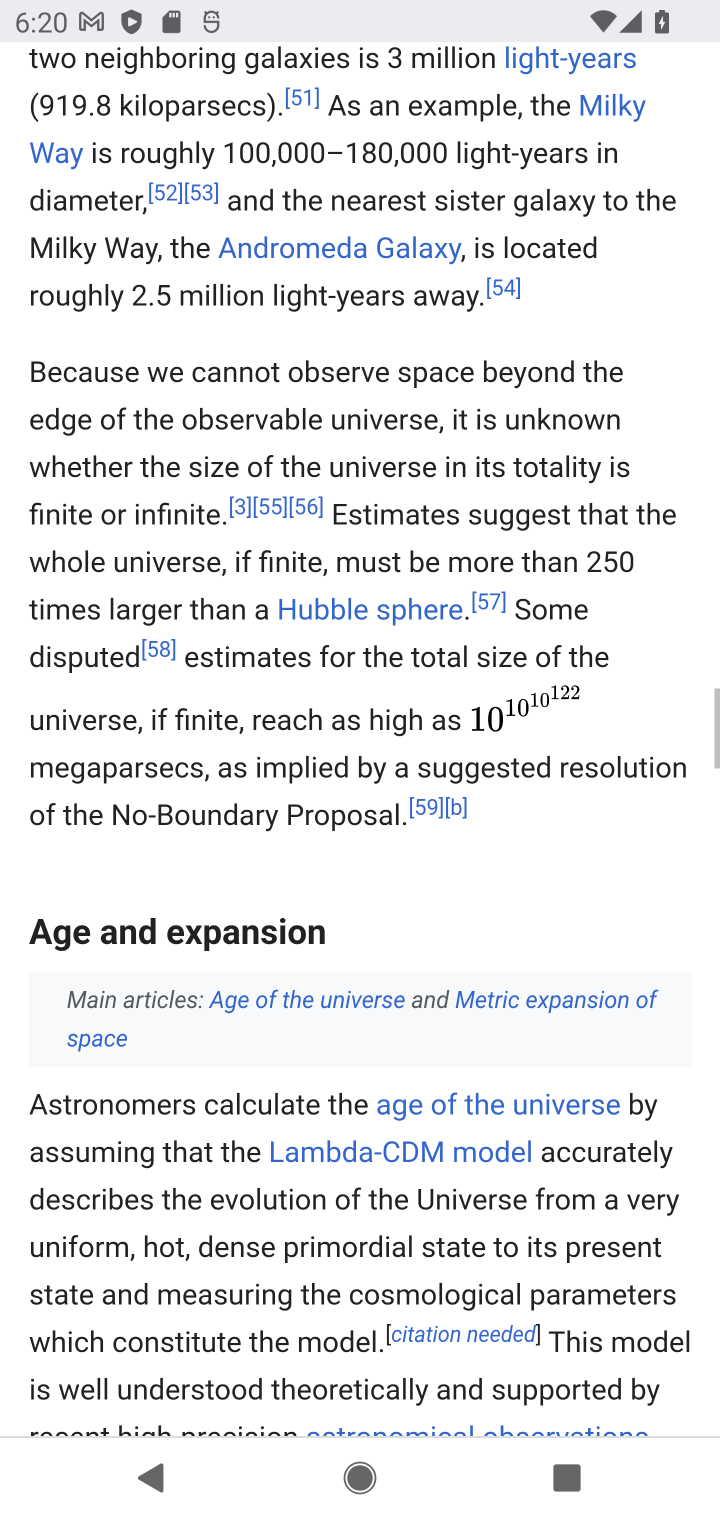
Step 29: drag from (457, 921) to (490, 476)
Your task to perform on an android device: How big is the universe? Image 30: 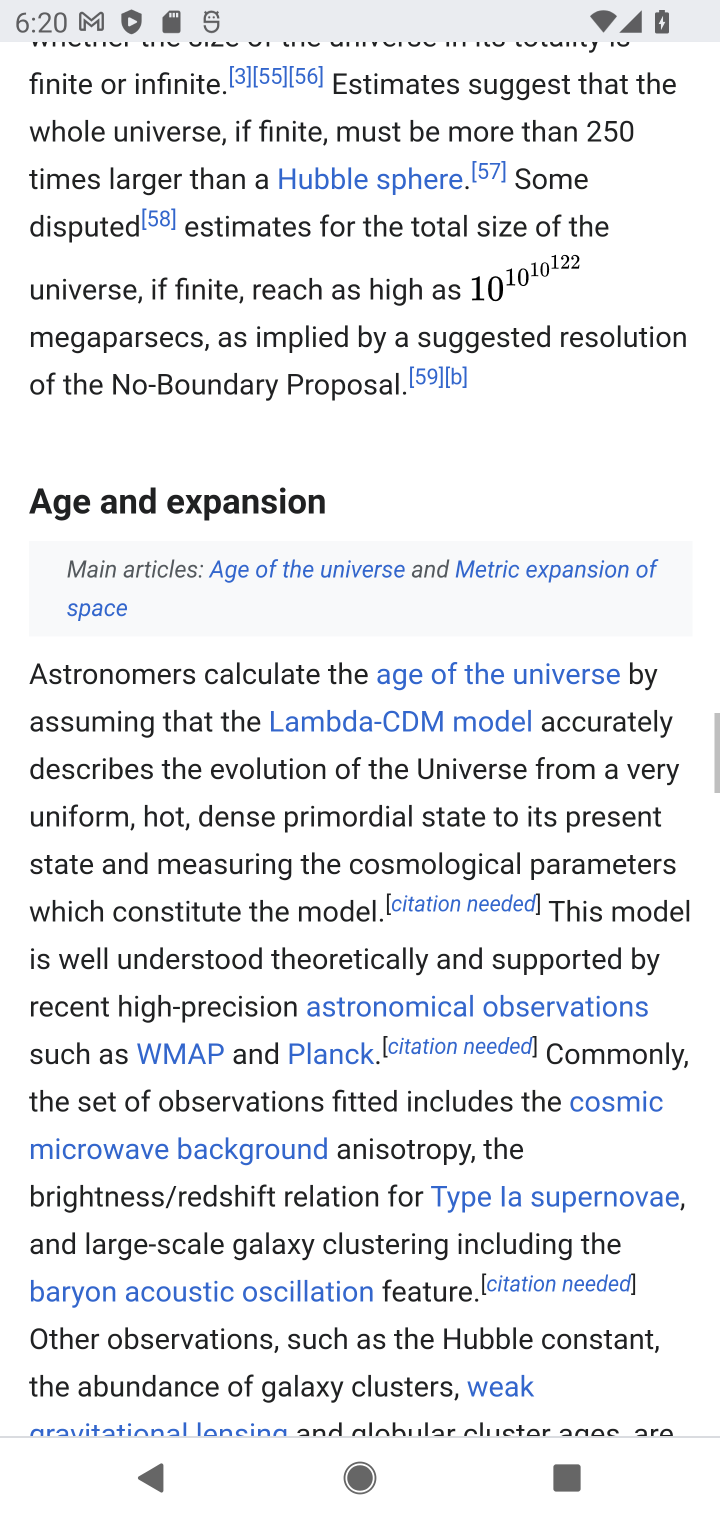
Step 30: drag from (449, 760) to (473, 495)
Your task to perform on an android device: How big is the universe? Image 31: 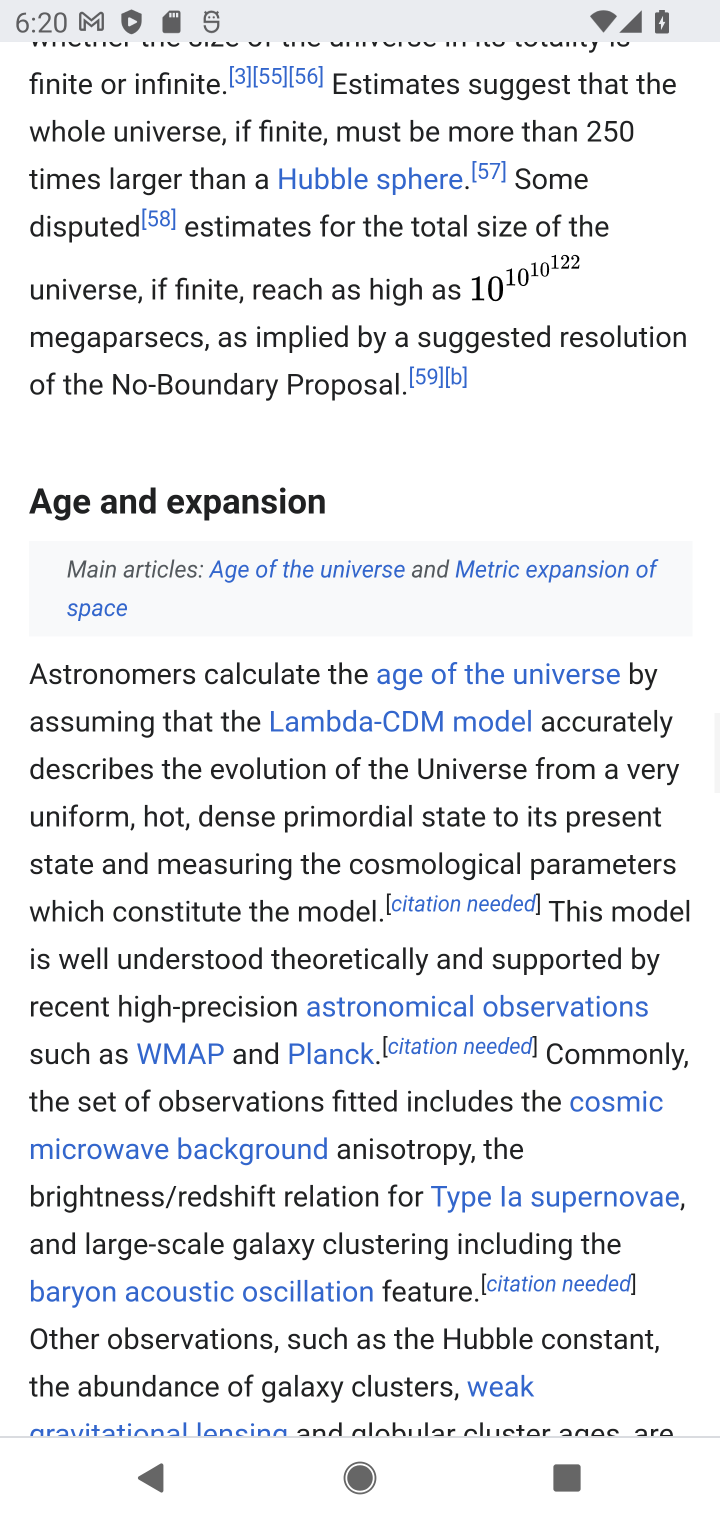
Step 31: drag from (456, 866) to (462, 502)
Your task to perform on an android device: How big is the universe? Image 32: 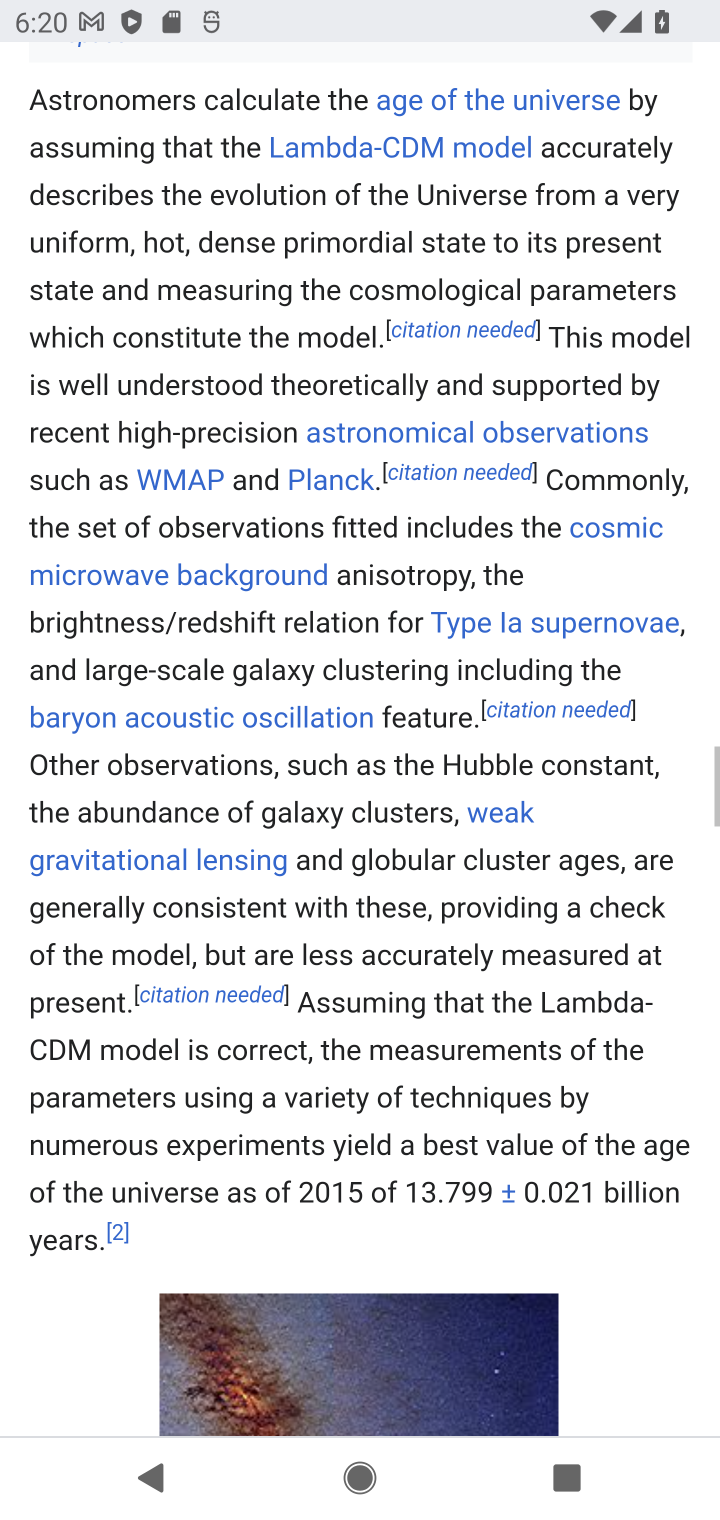
Step 32: click (487, 464)
Your task to perform on an android device: How big is the universe? Image 33: 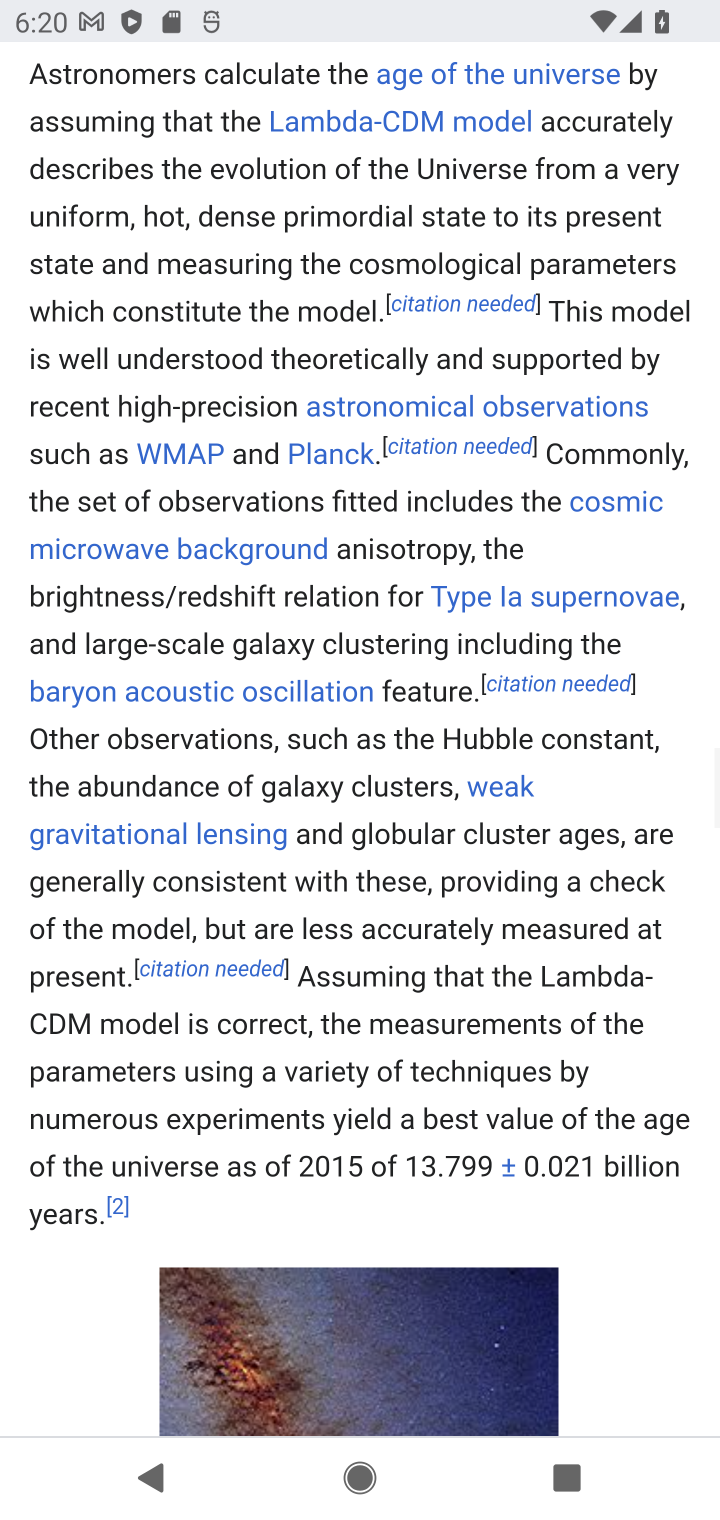
Step 33: click (460, 570)
Your task to perform on an android device: How big is the universe? Image 34: 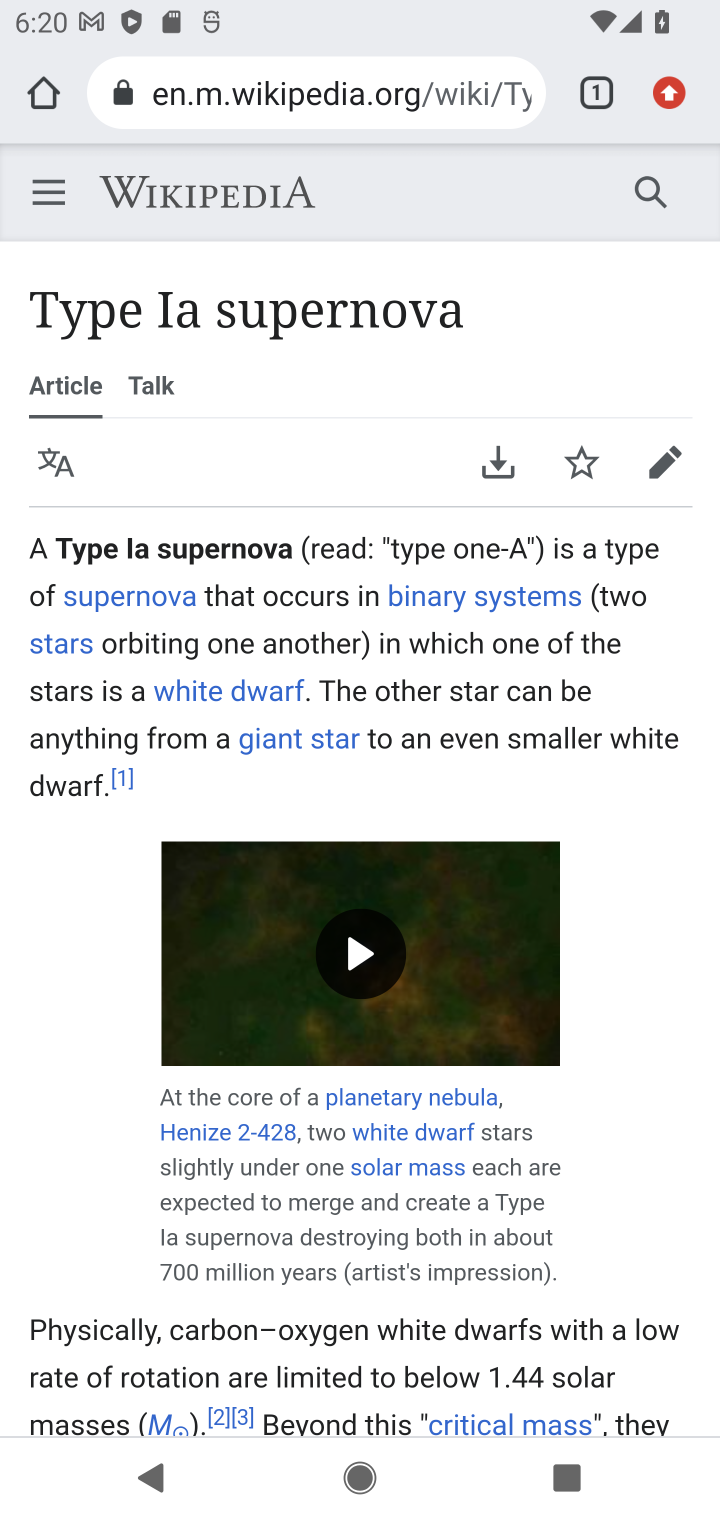
Step 34: drag from (223, 903) to (285, 660)
Your task to perform on an android device: How big is the universe? Image 35: 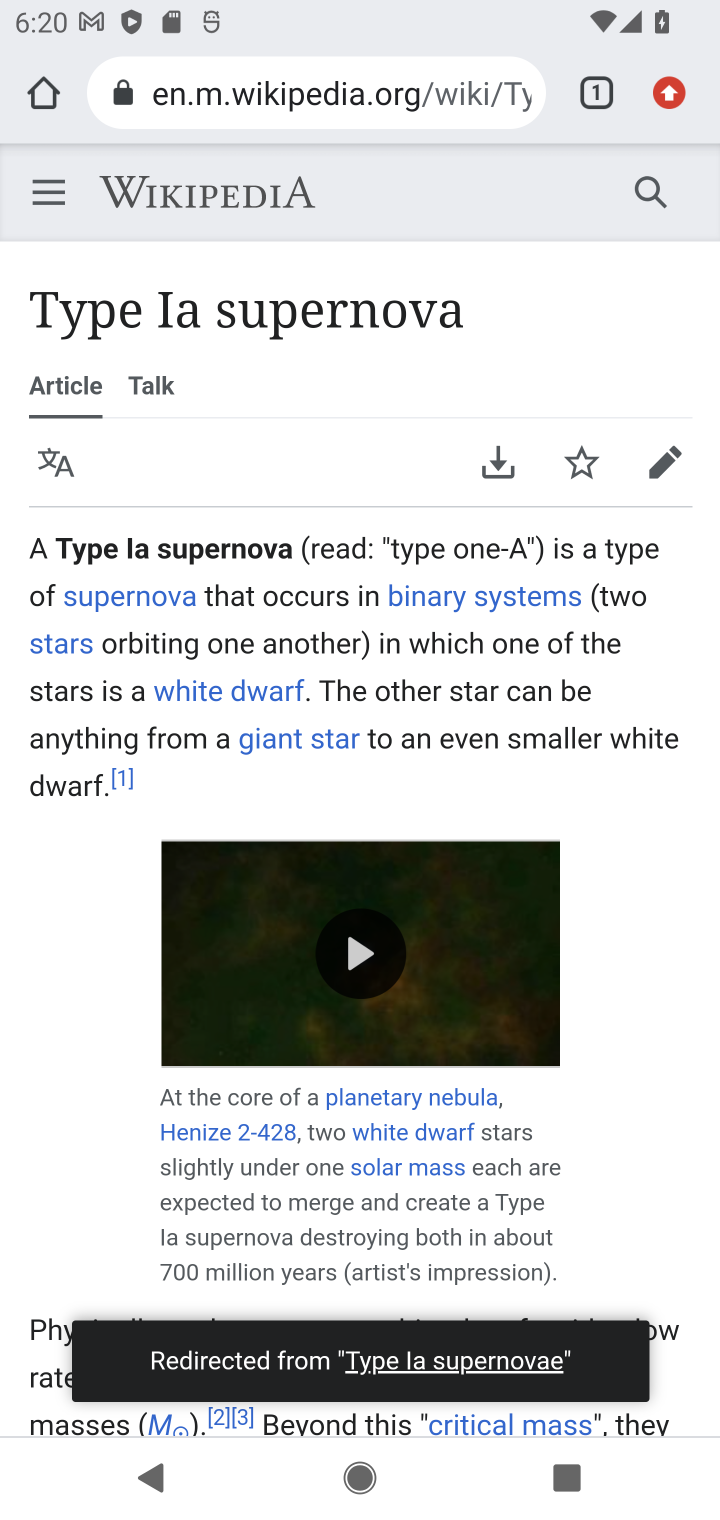
Step 35: drag from (349, 955) to (383, 598)
Your task to perform on an android device: How big is the universe? Image 36: 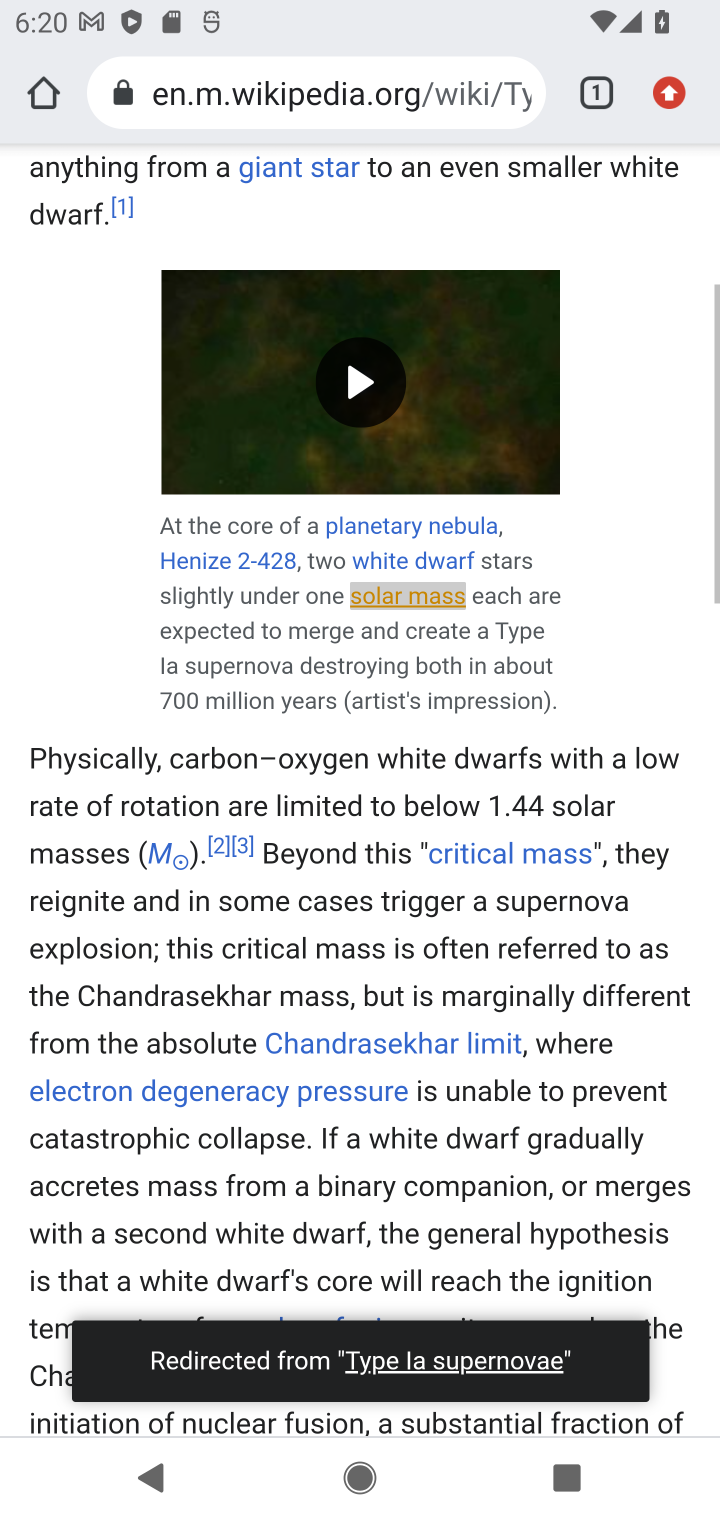
Step 36: drag from (330, 930) to (403, 409)
Your task to perform on an android device: How big is the universe? Image 37: 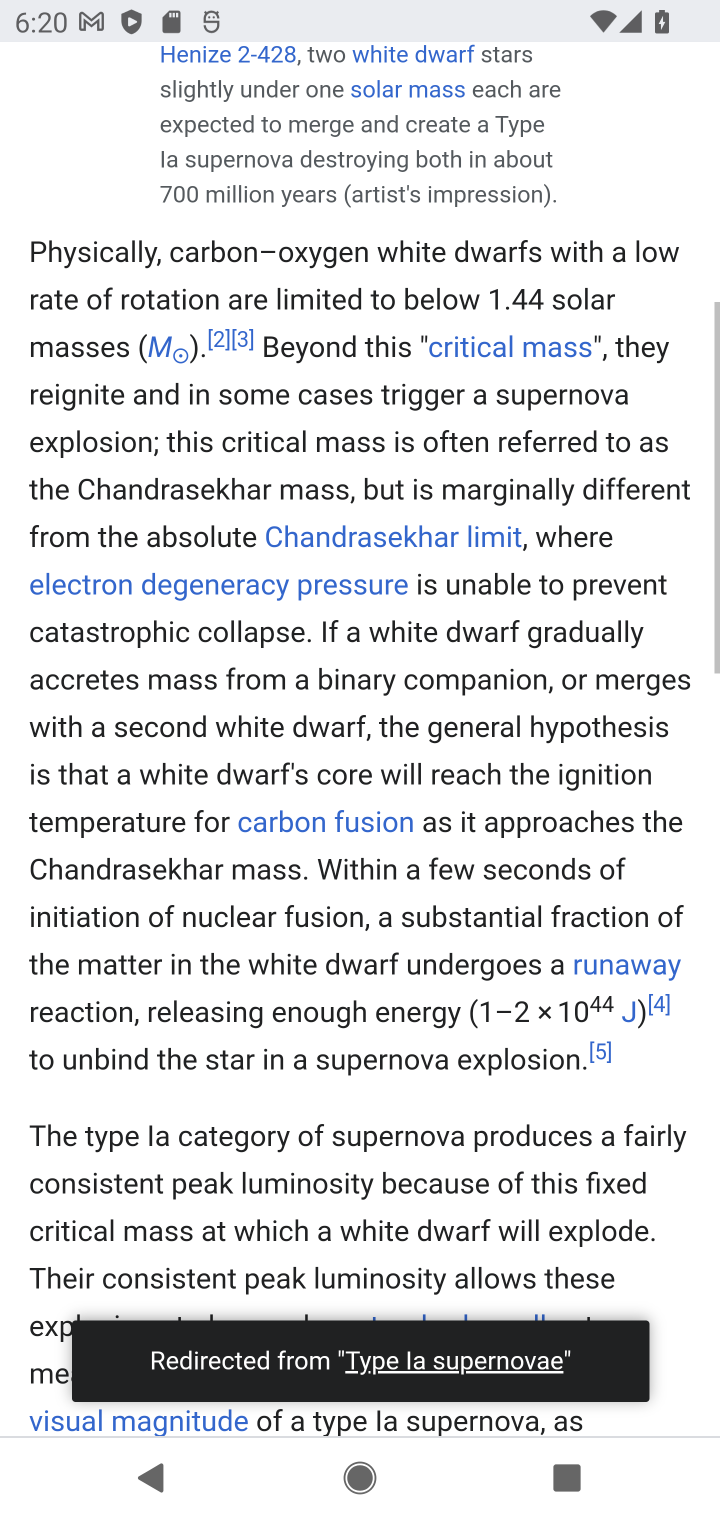
Step 37: drag from (443, 370) to (468, 264)
Your task to perform on an android device: How big is the universe? Image 38: 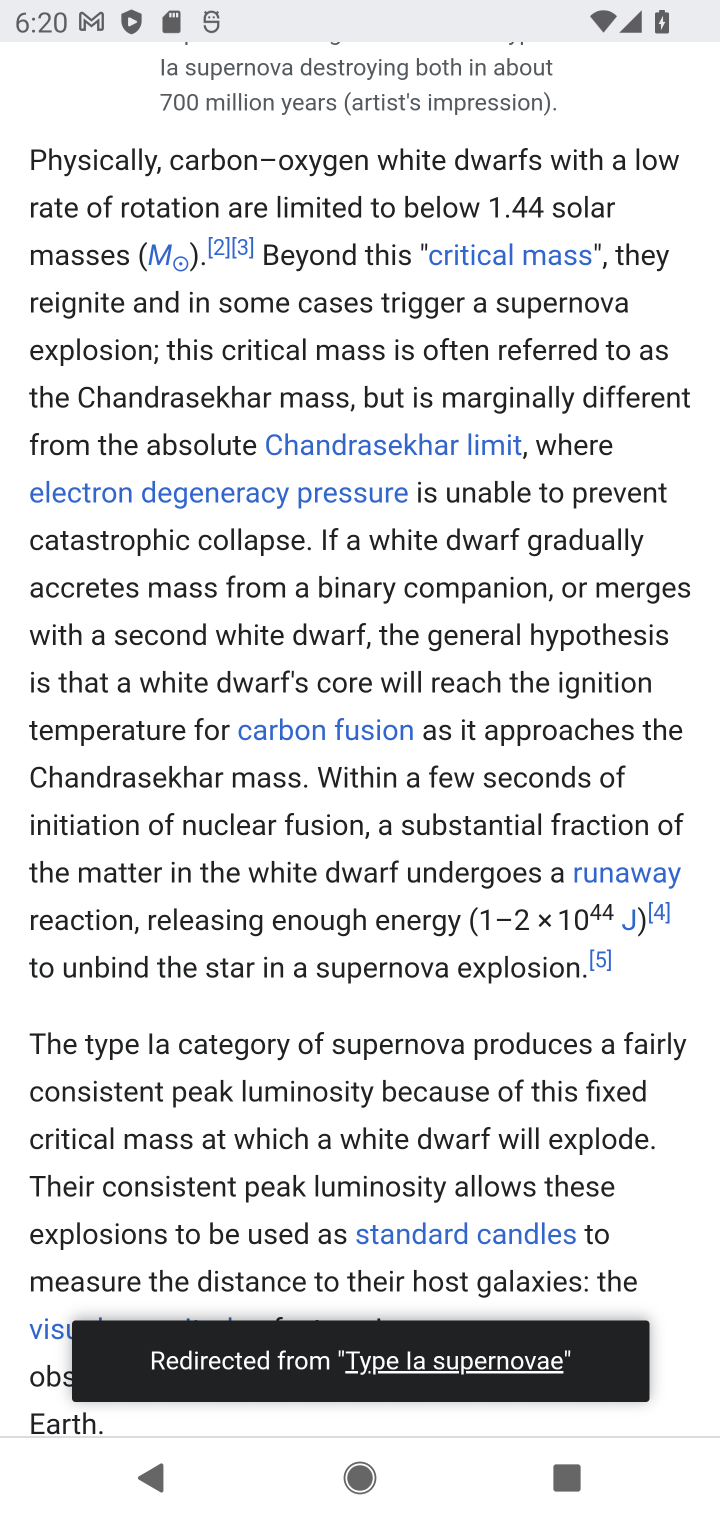
Step 38: press back button
Your task to perform on an android device: How big is the universe? Image 39: 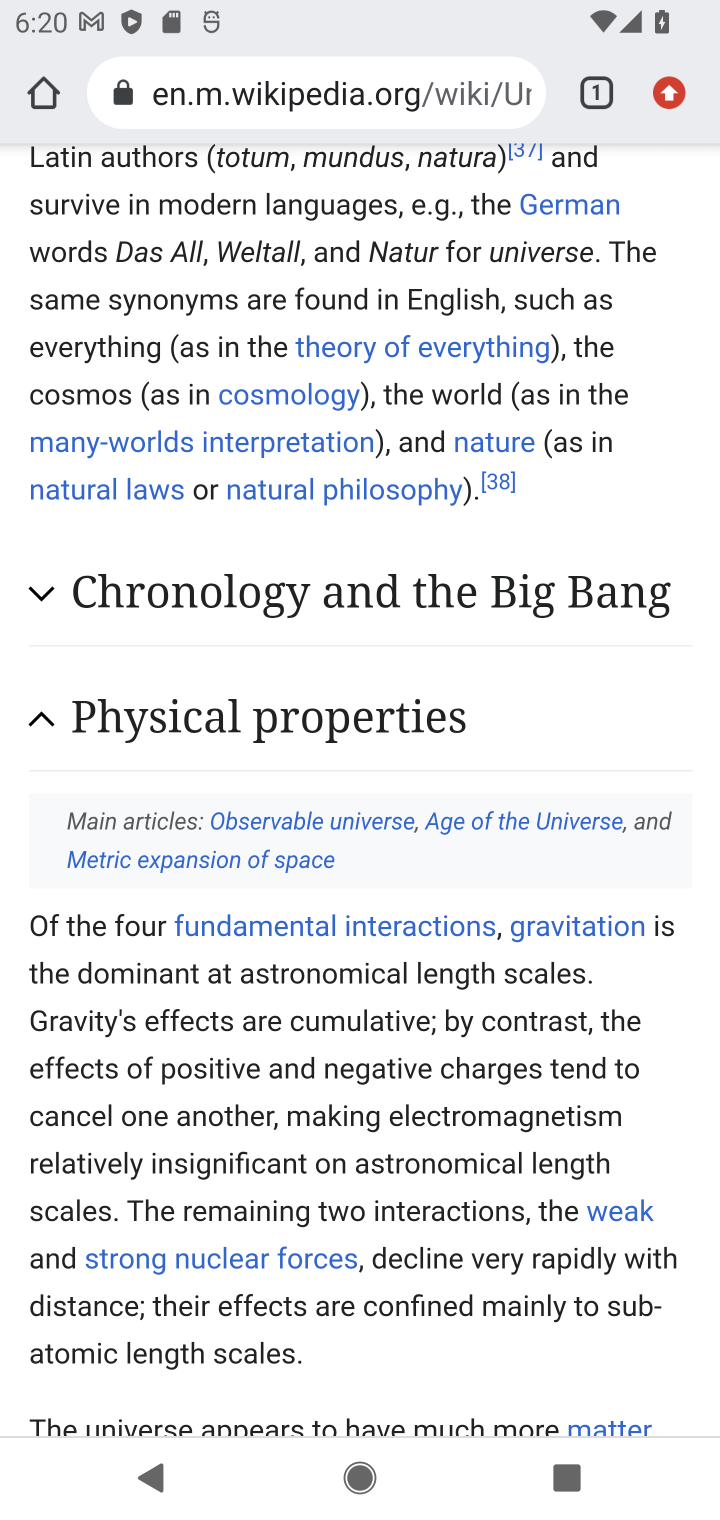
Step 39: press back button
Your task to perform on an android device: How big is the universe? Image 40: 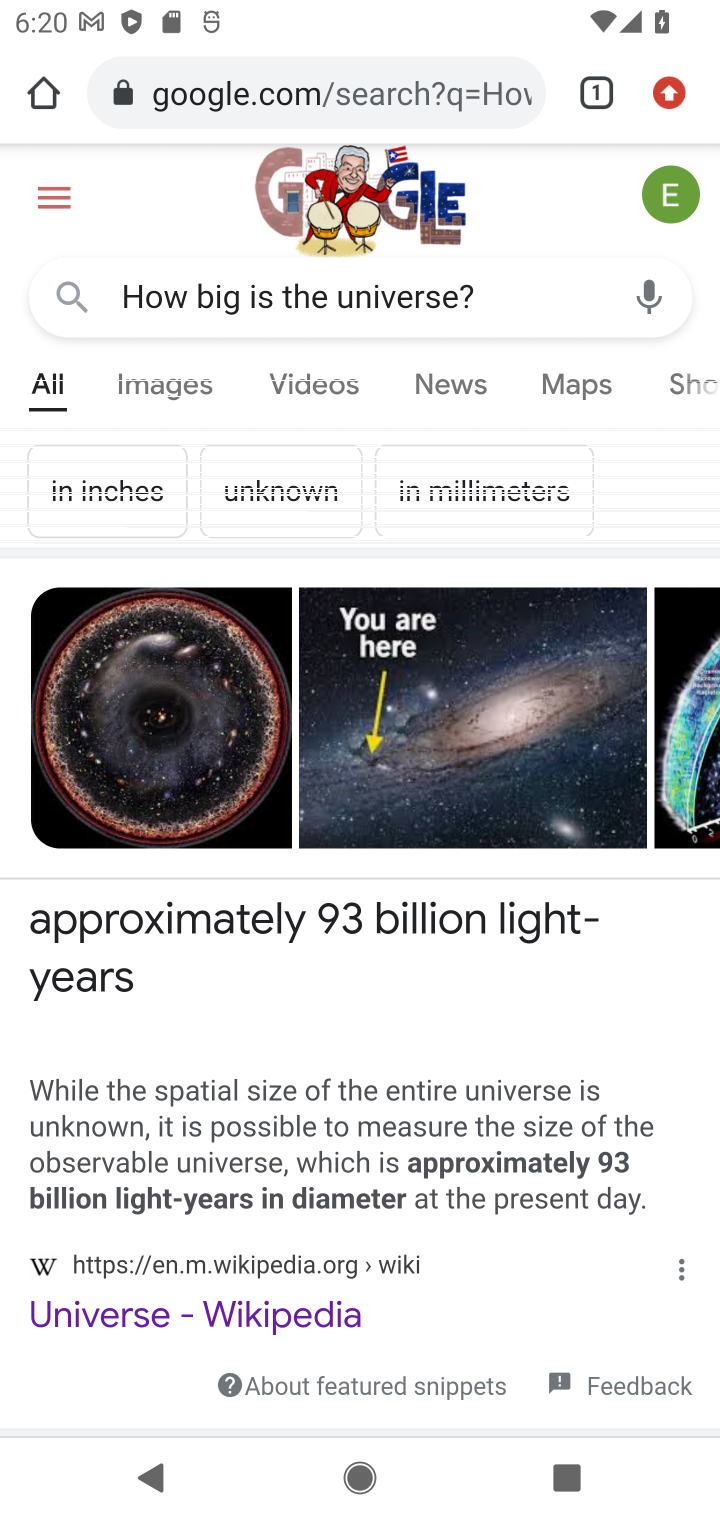
Step 40: drag from (358, 1215) to (417, 293)
Your task to perform on an android device: How big is the universe? Image 41: 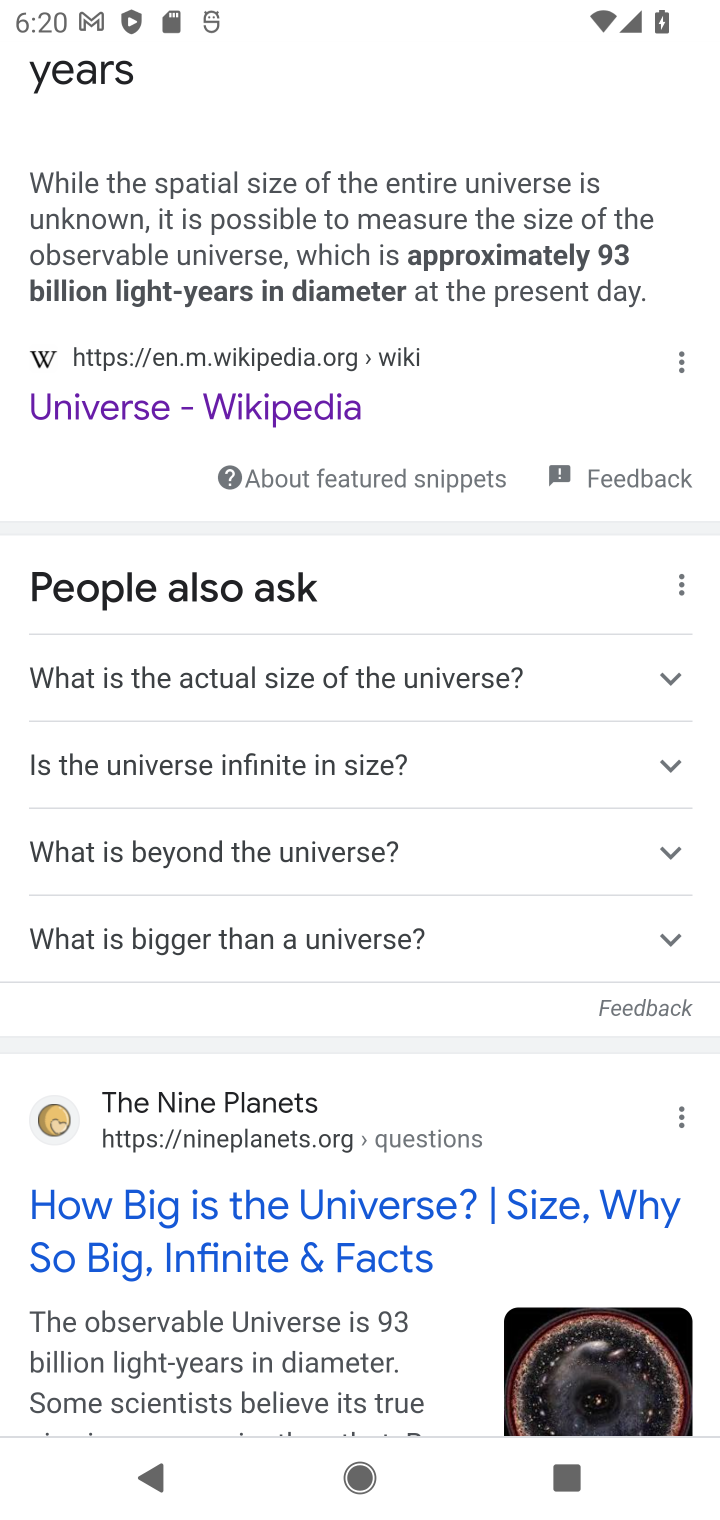
Step 41: click (233, 1195)
Your task to perform on an android device: How big is the universe? Image 42: 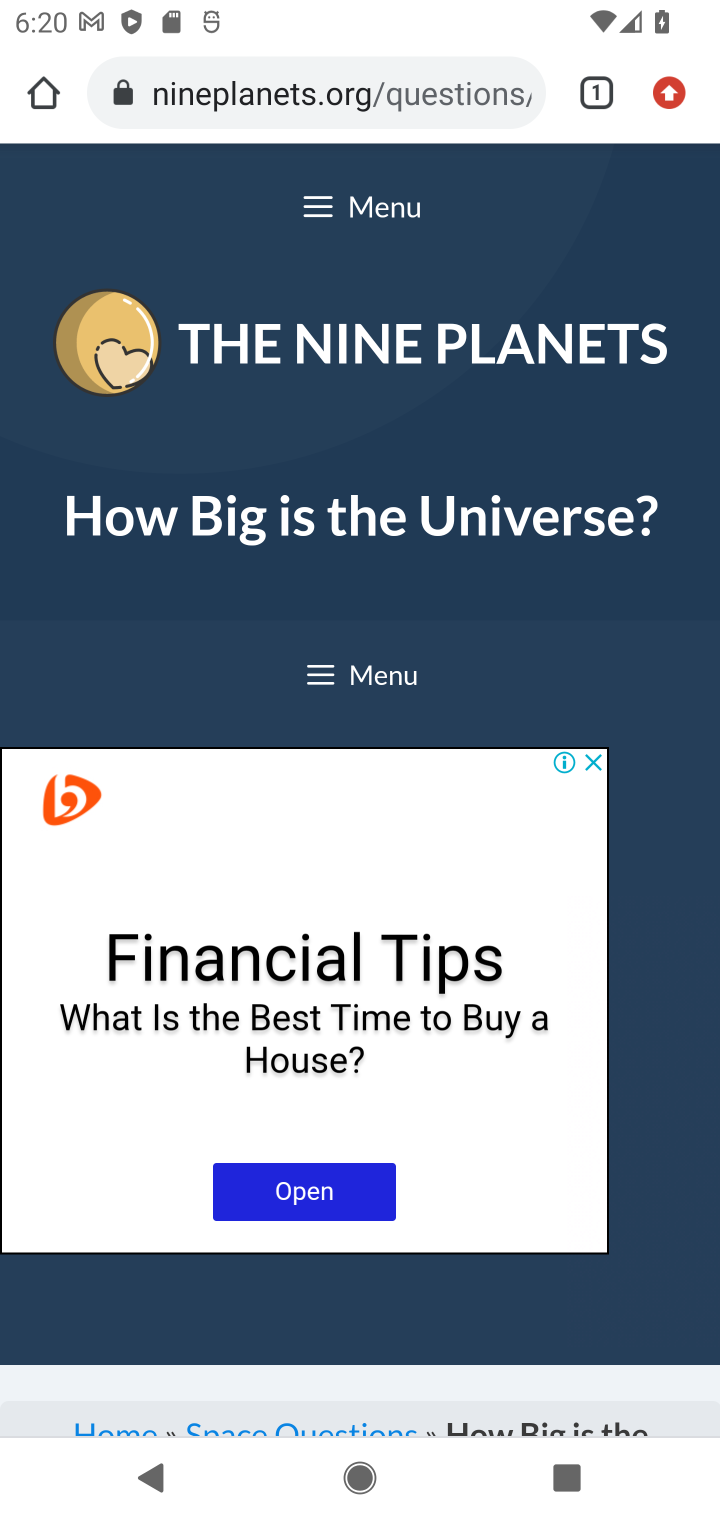
Step 42: task complete